Your task to perform on an android device: open app "Instagram" Image 0: 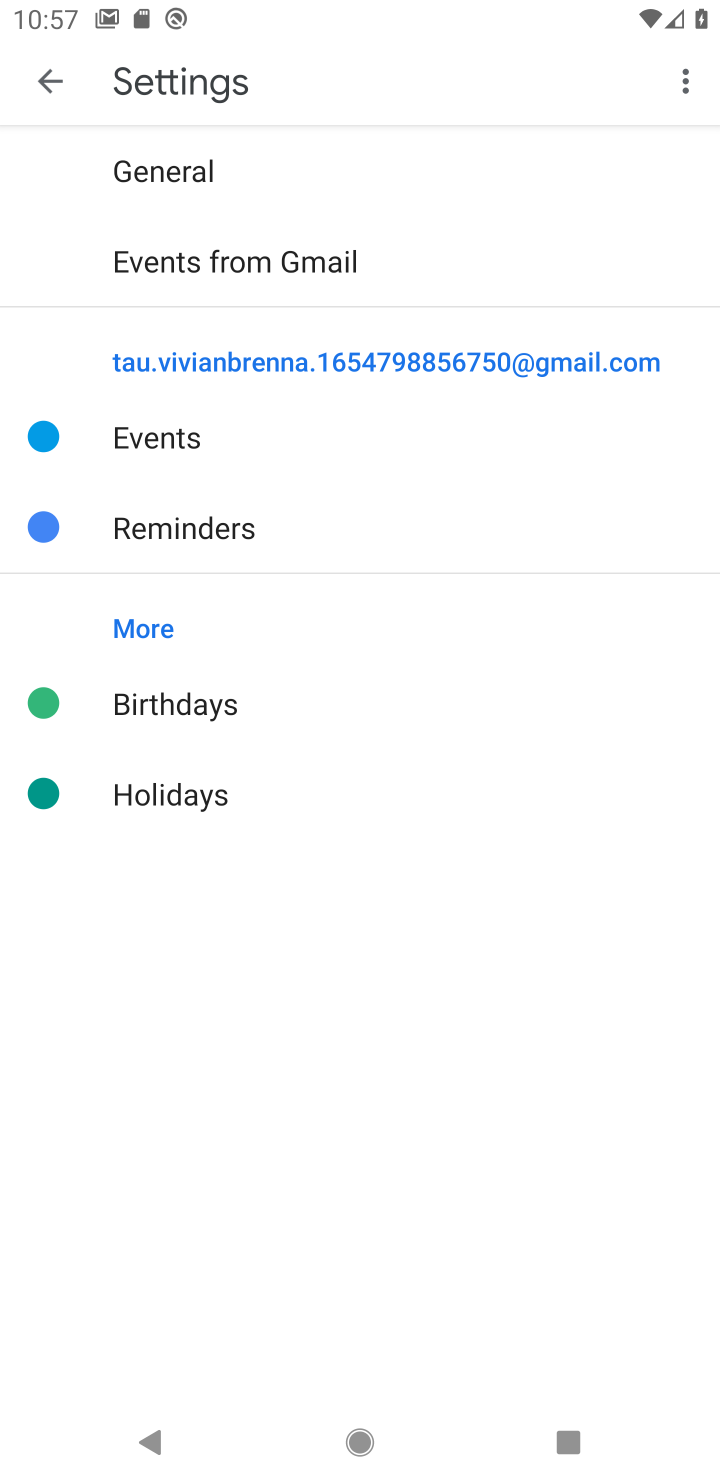
Step 0: press back button
Your task to perform on an android device: open app "Instagram" Image 1: 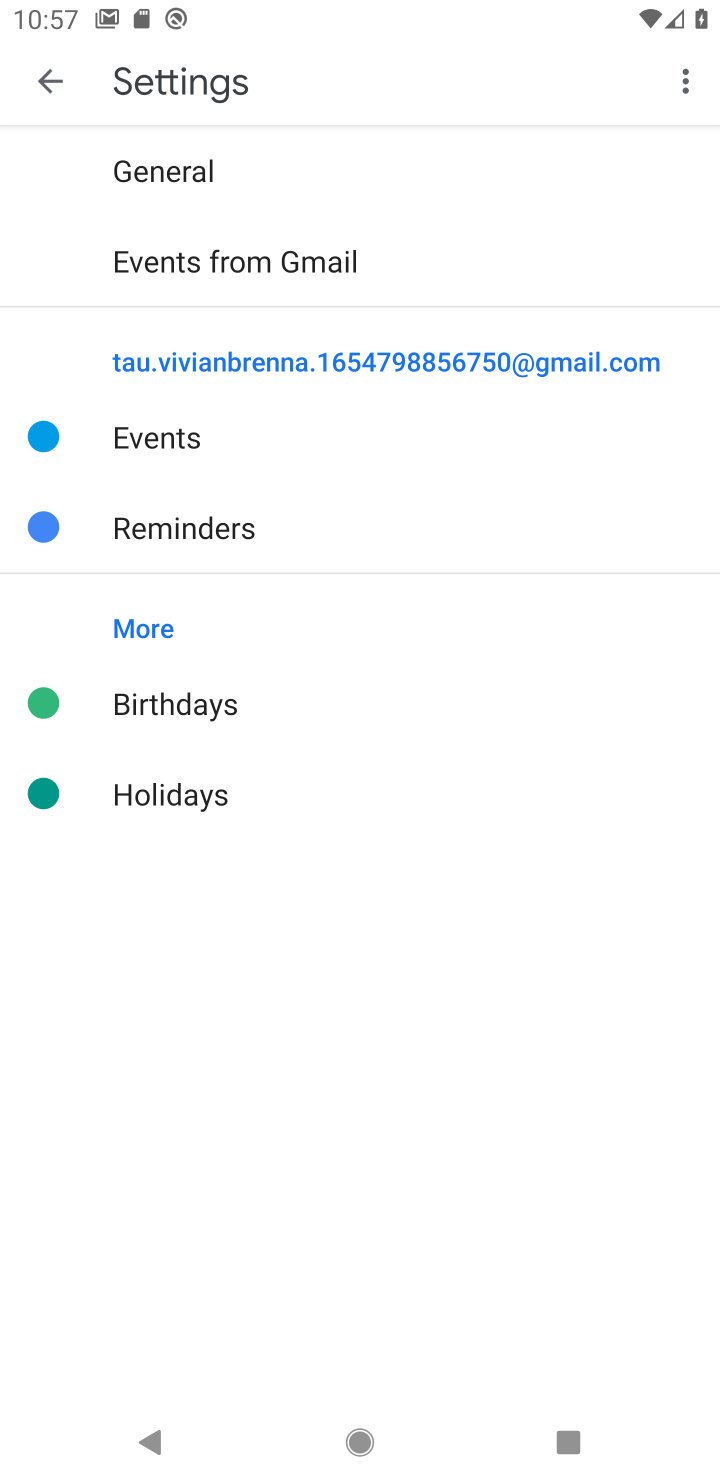
Step 1: press home button
Your task to perform on an android device: open app "Instagram" Image 2: 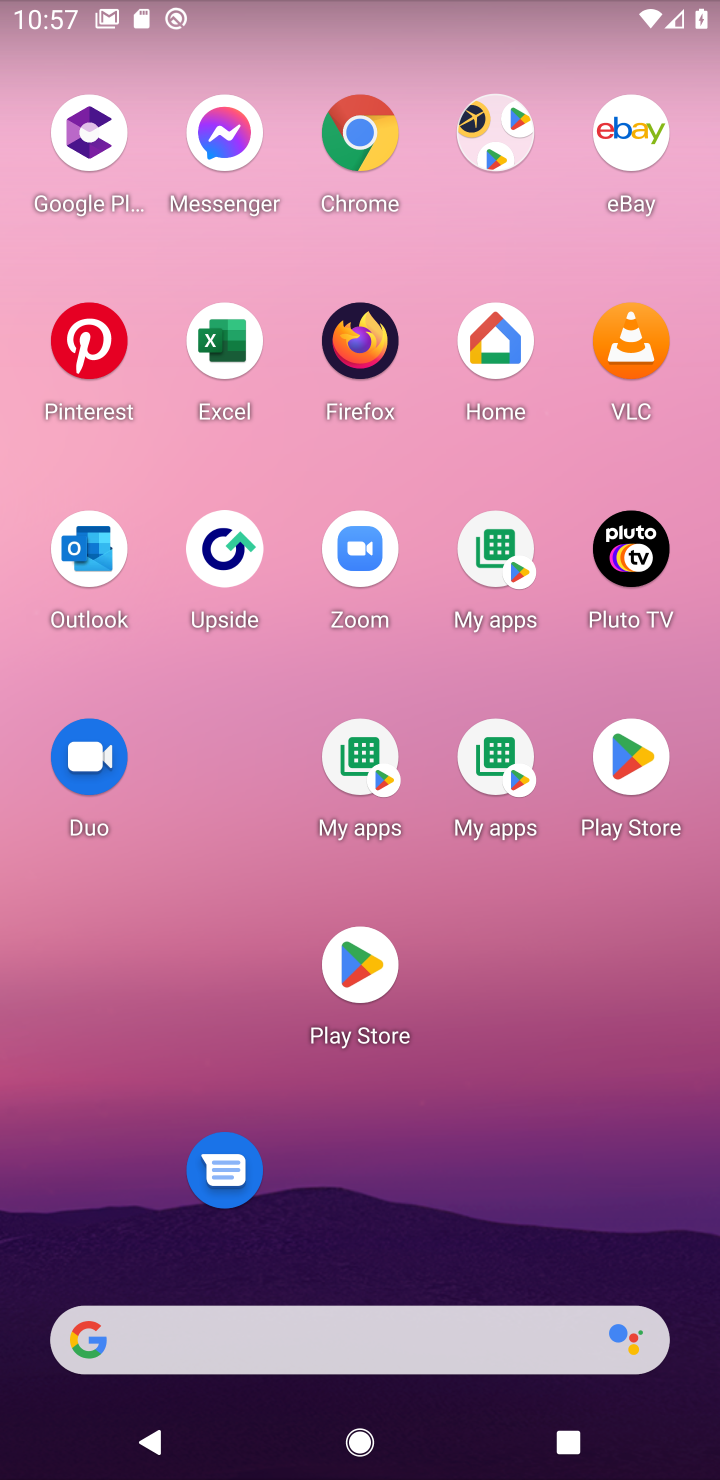
Step 2: click (48, 76)
Your task to perform on an android device: open app "Instagram" Image 3: 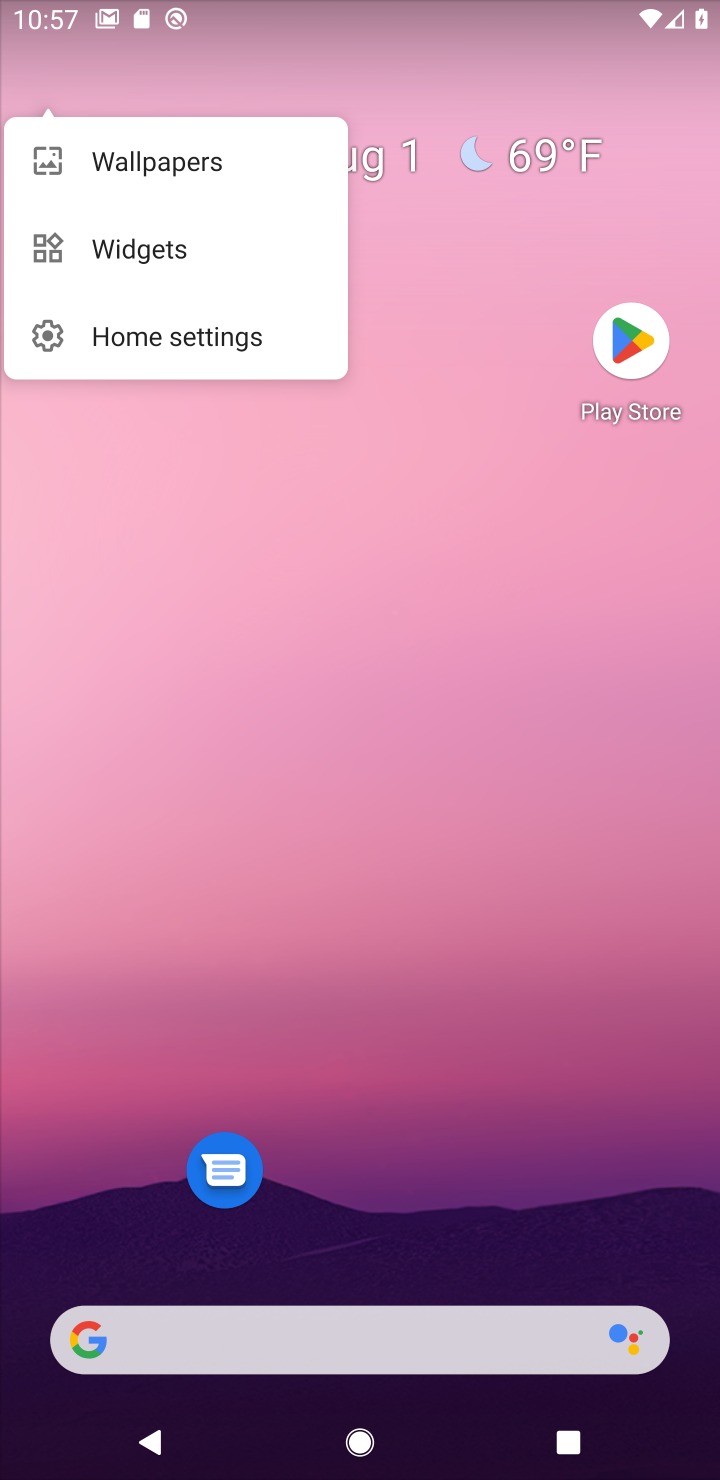
Step 3: press back button
Your task to perform on an android device: open app "Instagram" Image 4: 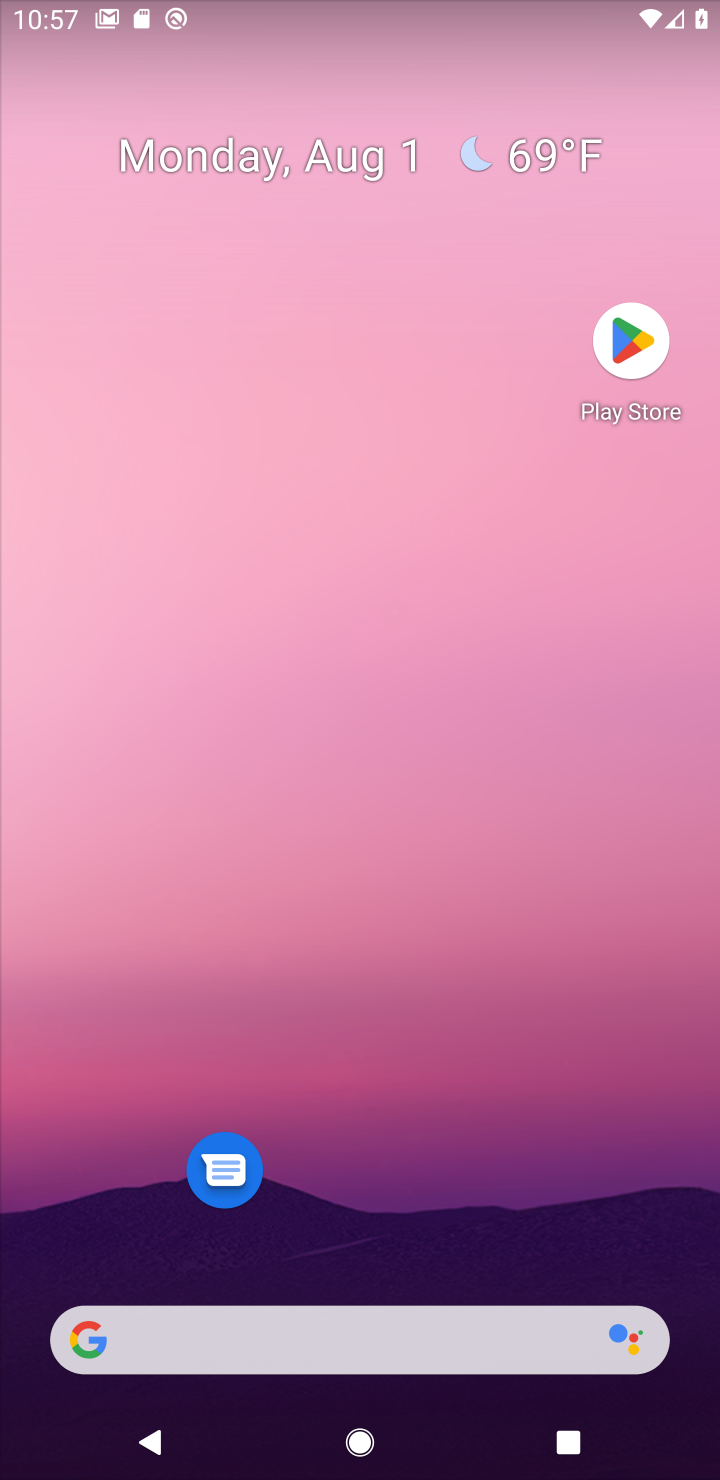
Step 4: drag from (194, 716) to (404, 466)
Your task to perform on an android device: open app "Instagram" Image 5: 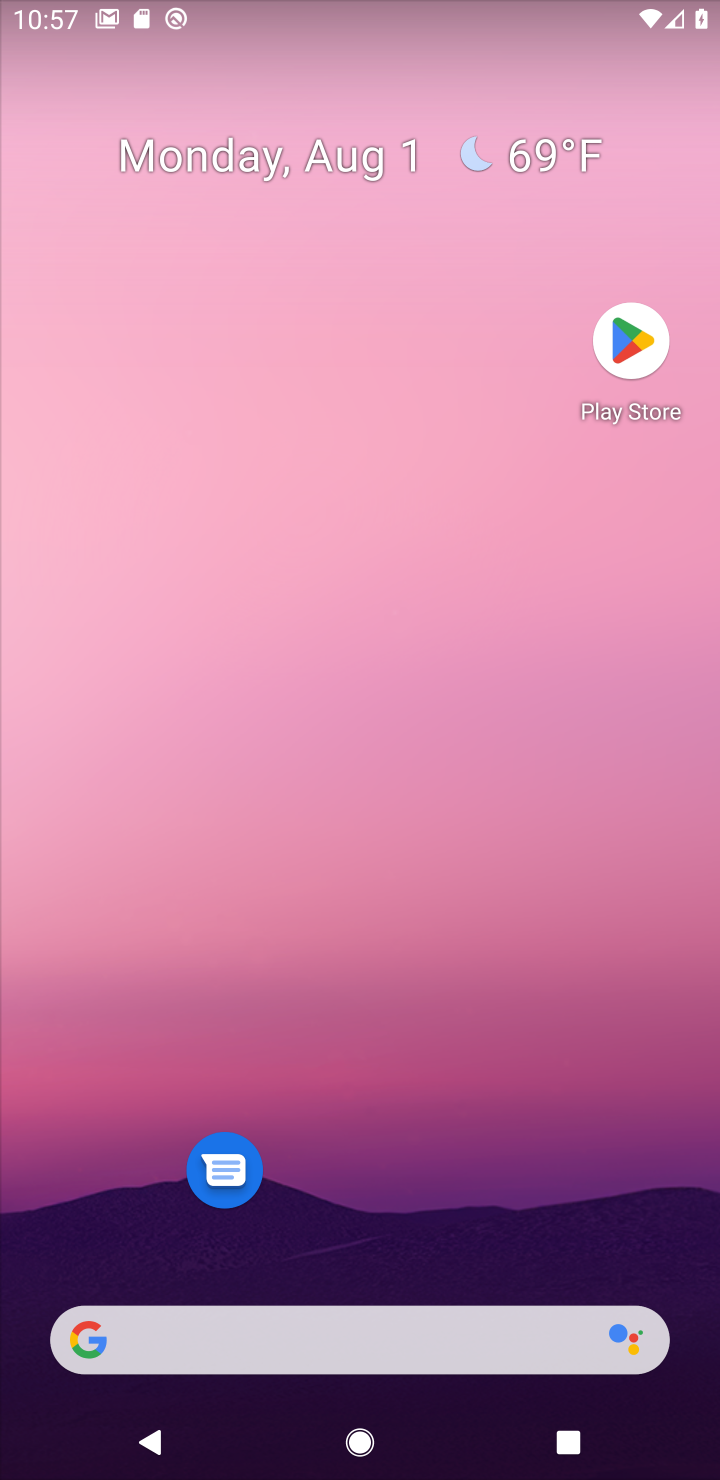
Step 5: click (303, 342)
Your task to perform on an android device: open app "Instagram" Image 6: 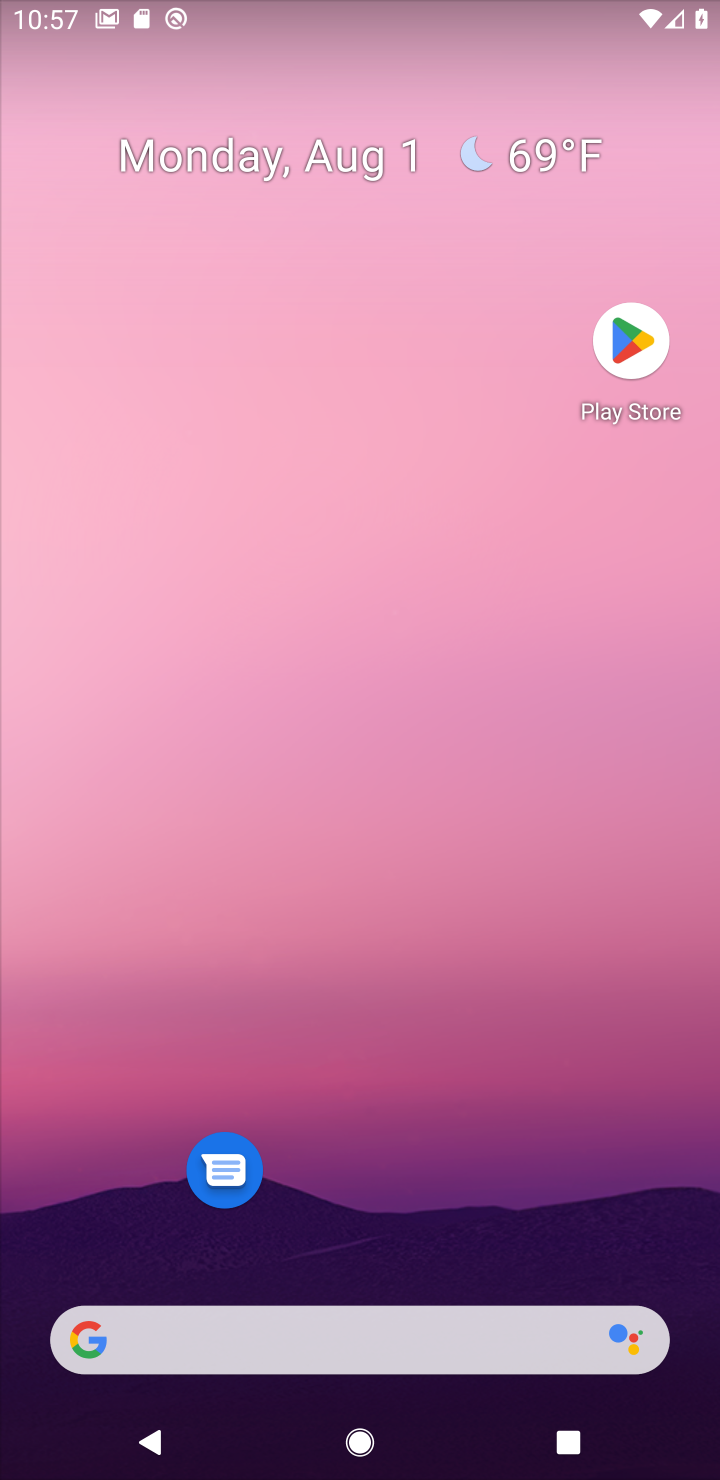
Step 6: drag from (530, 1227) to (224, 175)
Your task to perform on an android device: open app "Instagram" Image 7: 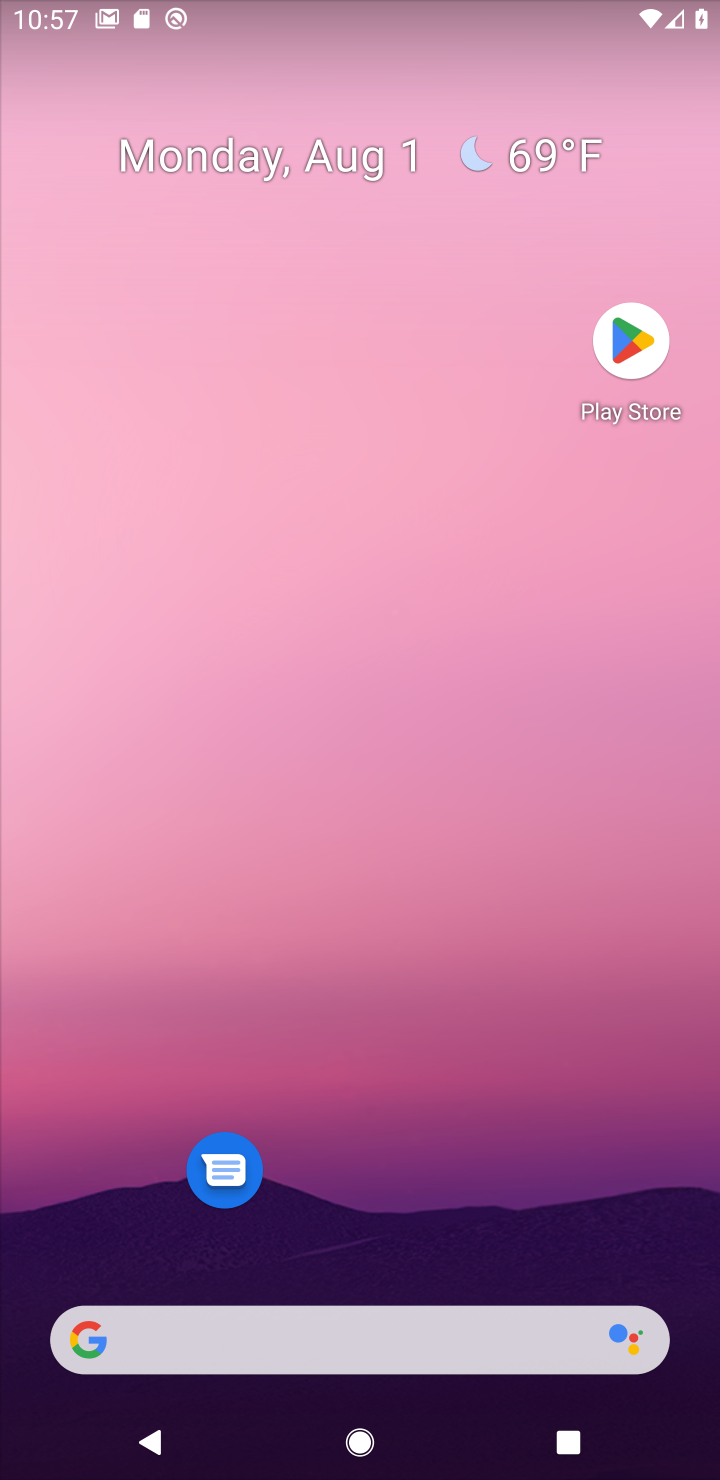
Step 7: click (358, 224)
Your task to perform on an android device: open app "Instagram" Image 8: 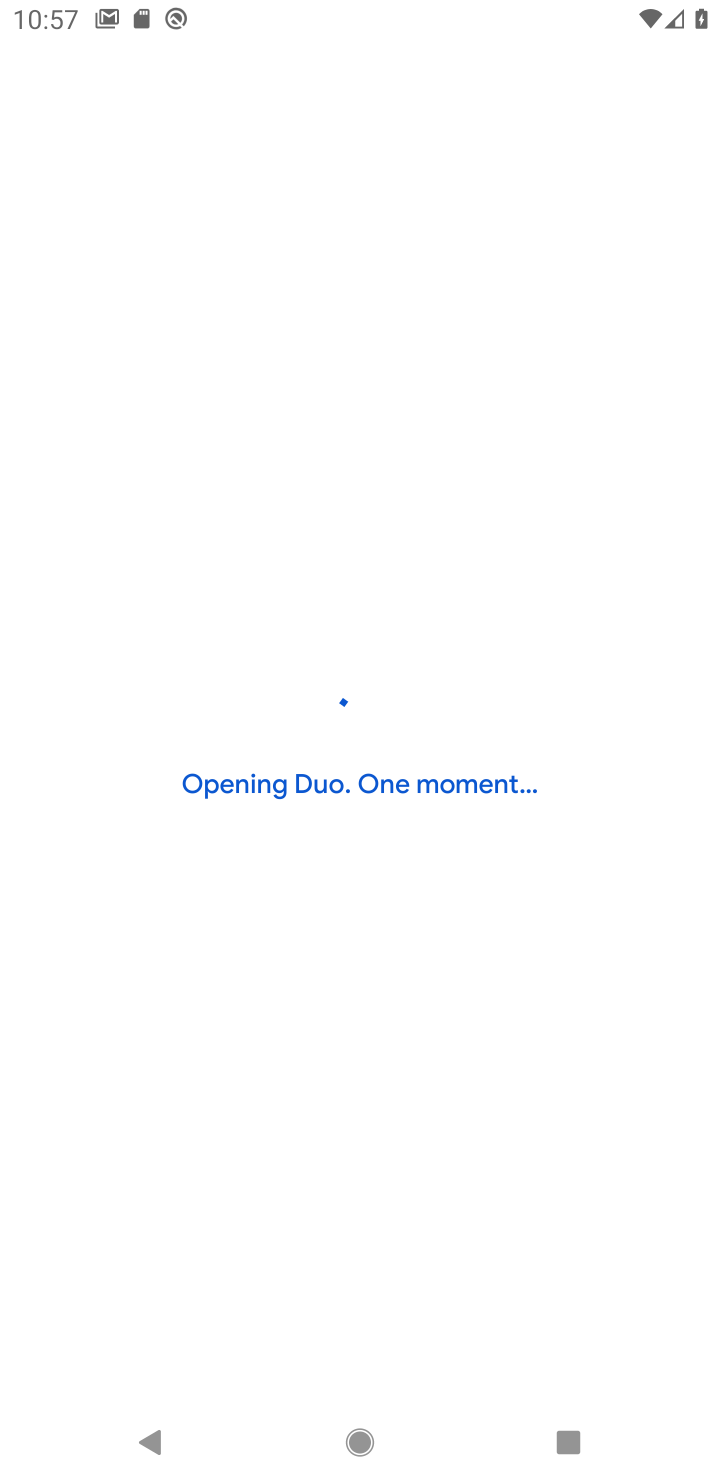
Step 8: press back button
Your task to perform on an android device: open app "Instagram" Image 9: 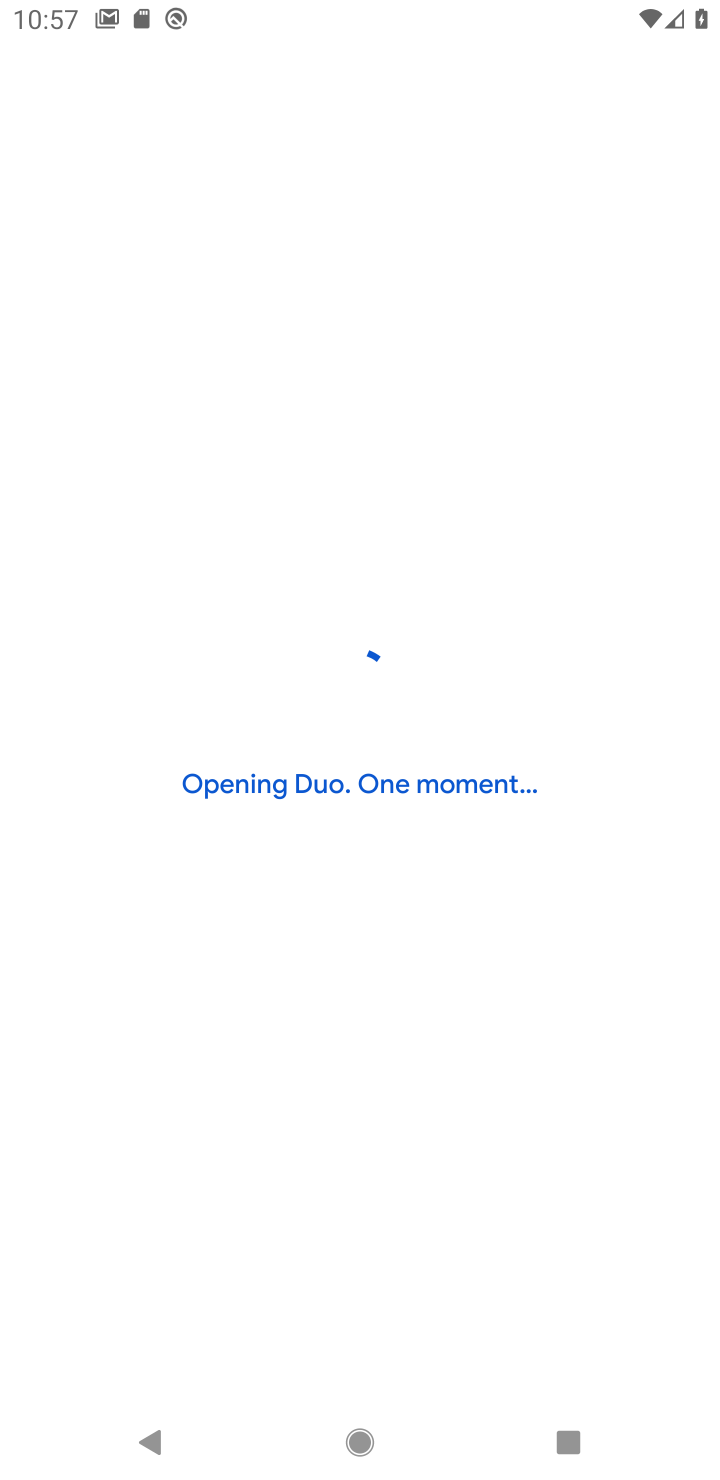
Step 9: press back button
Your task to perform on an android device: open app "Instagram" Image 10: 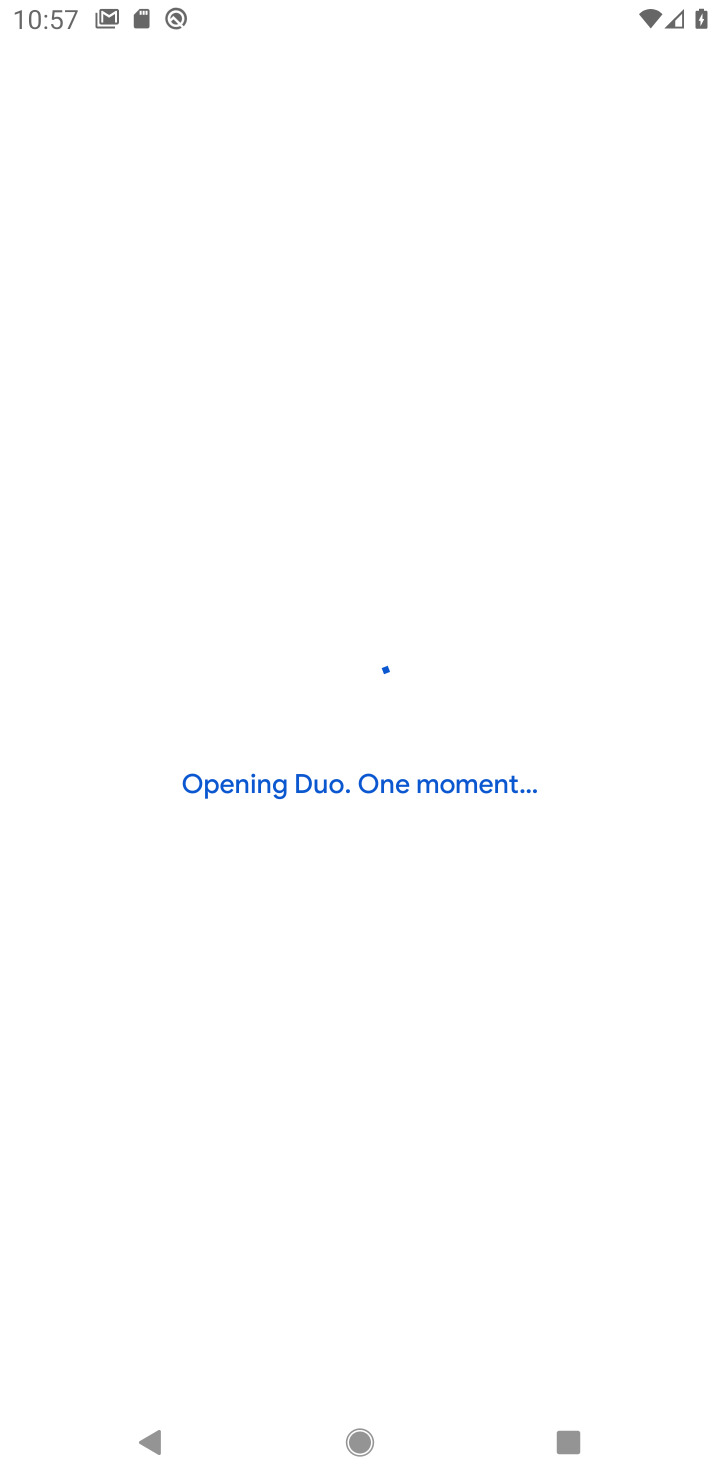
Step 10: drag from (307, 293) to (511, 476)
Your task to perform on an android device: open app "Instagram" Image 11: 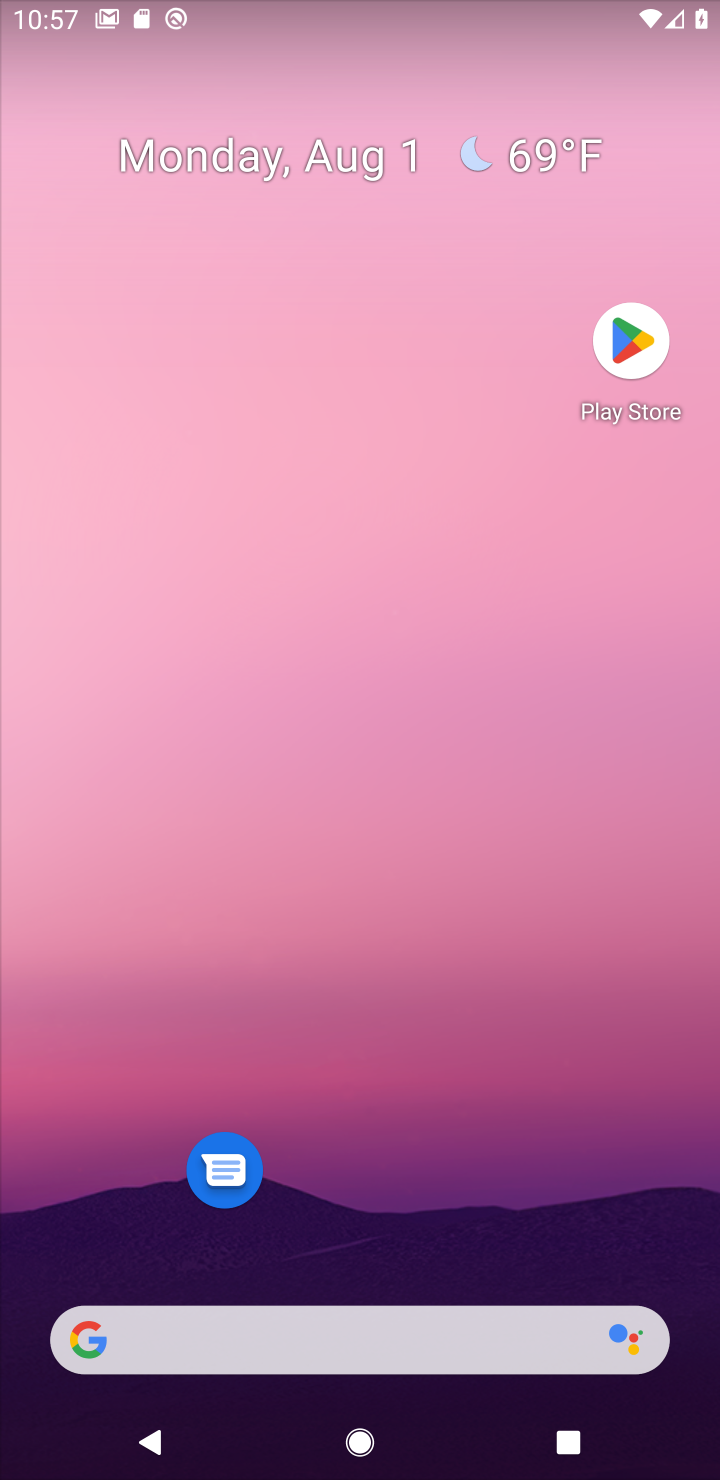
Step 11: press home button
Your task to perform on an android device: open app "Instagram" Image 12: 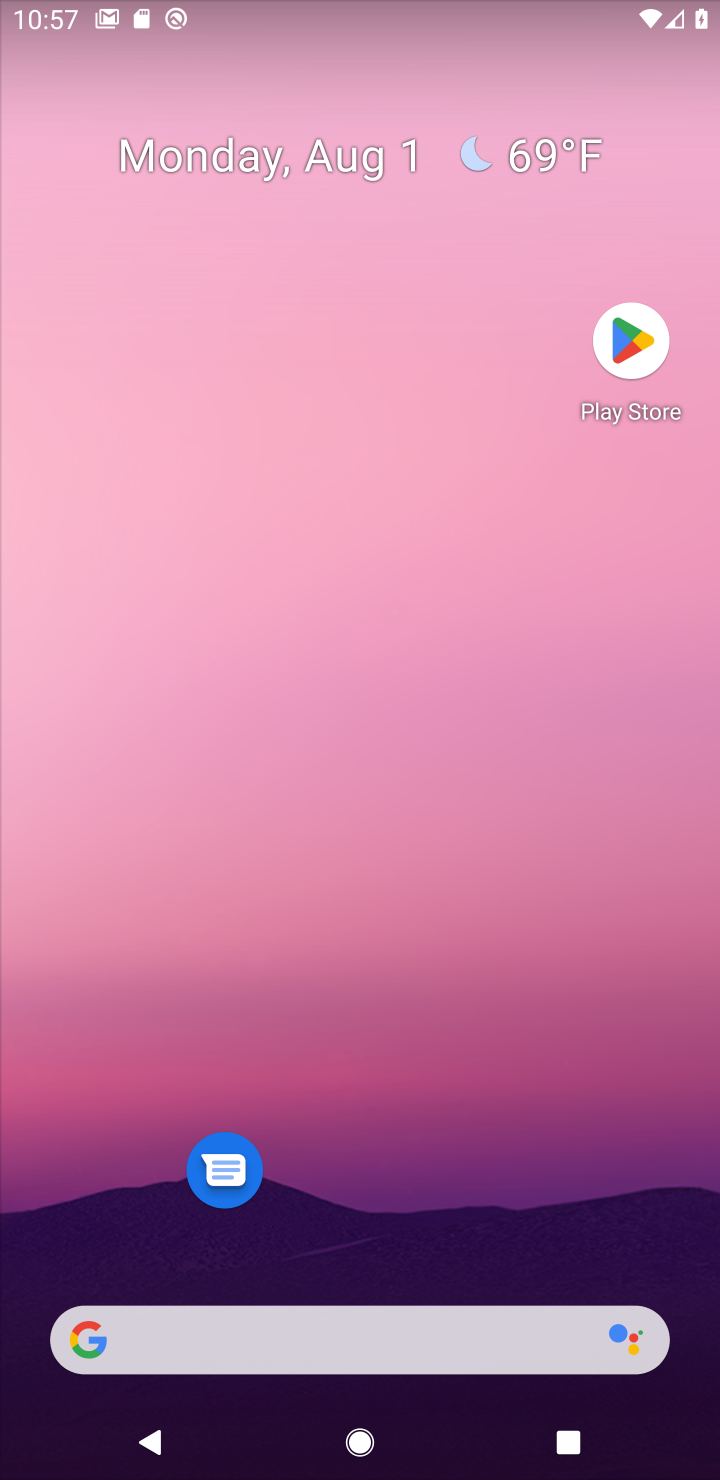
Step 12: press home button
Your task to perform on an android device: open app "Instagram" Image 13: 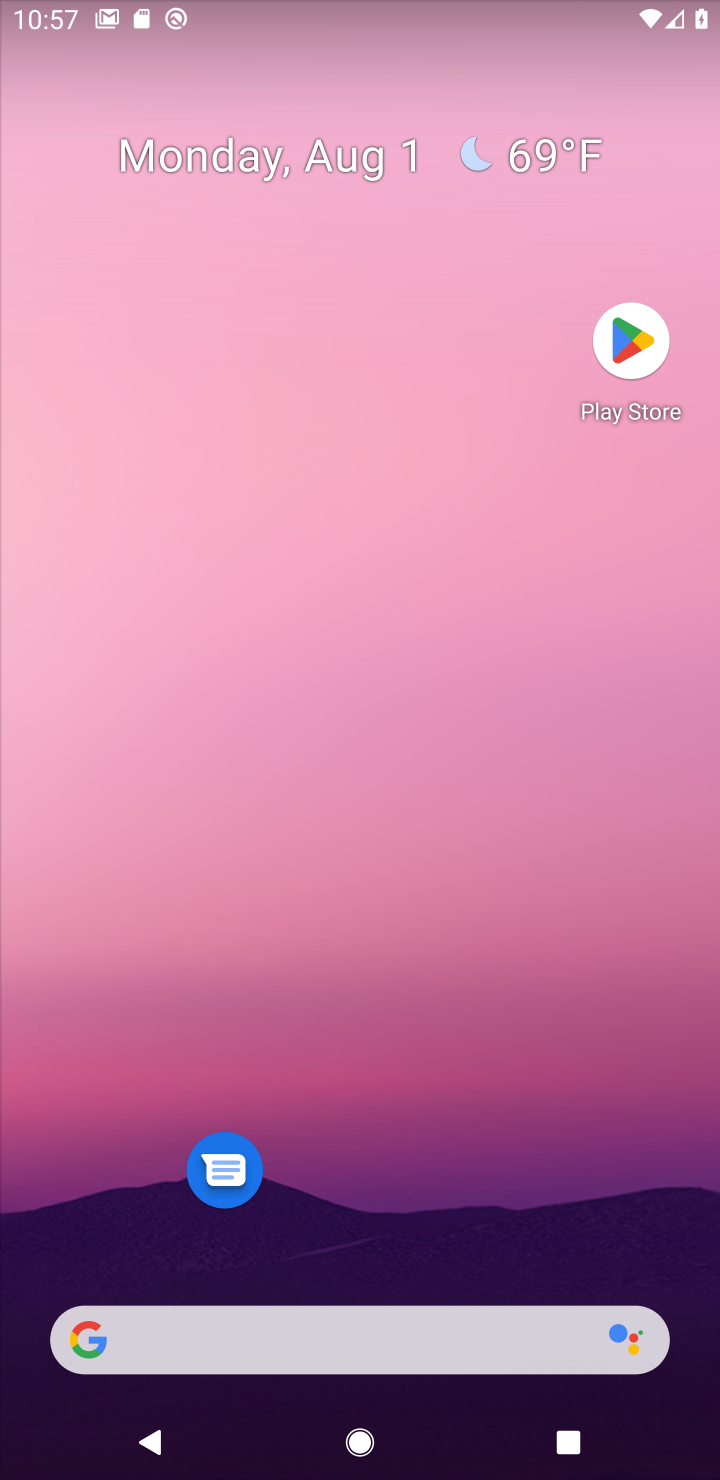
Step 13: click (443, 671)
Your task to perform on an android device: open app "Instagram" Image 14: 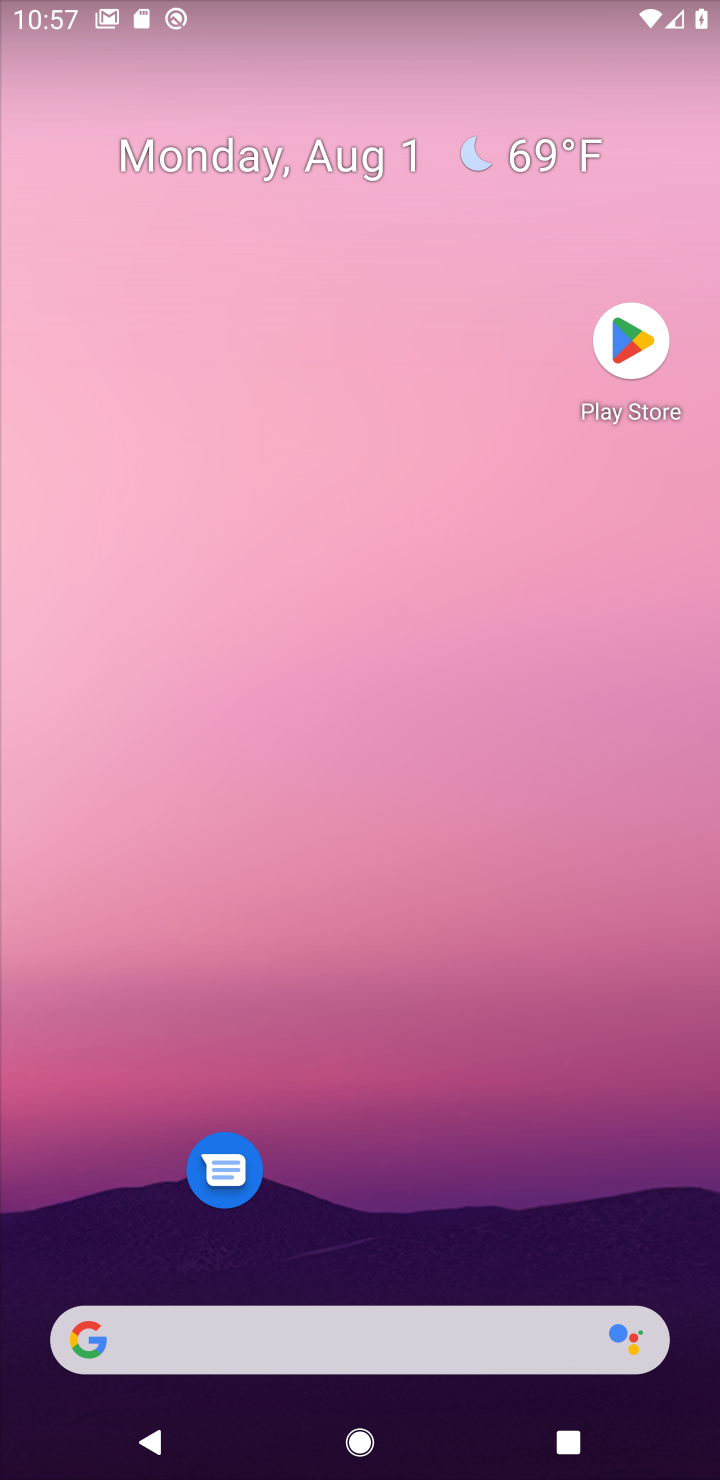
Step 14: drag from (411, 946) to (314, 145)
Your task to perform on an android device: open app "Instagram" Image 15: 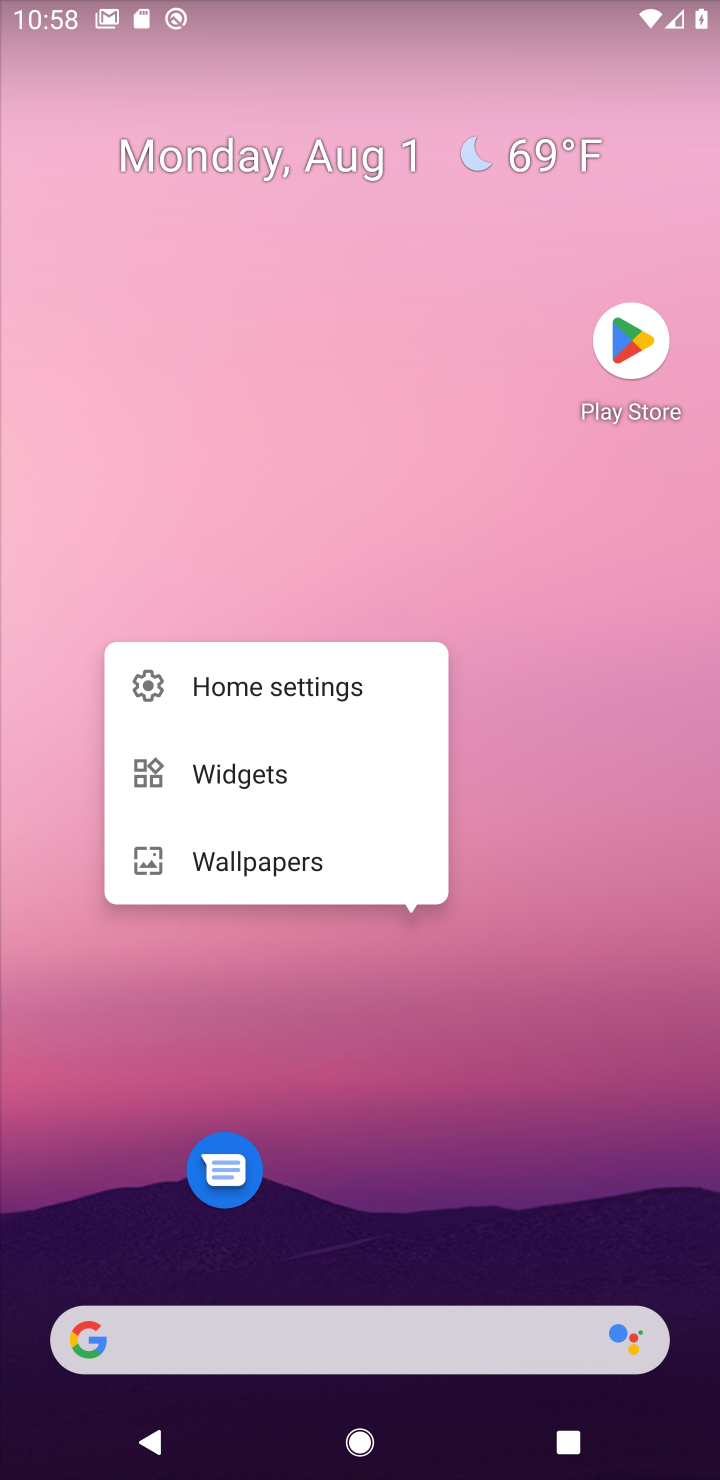
Step 15: drag from (373, 18) to (388, 494)
Your task to perform on an android device: open app "Instagram" Image 16: 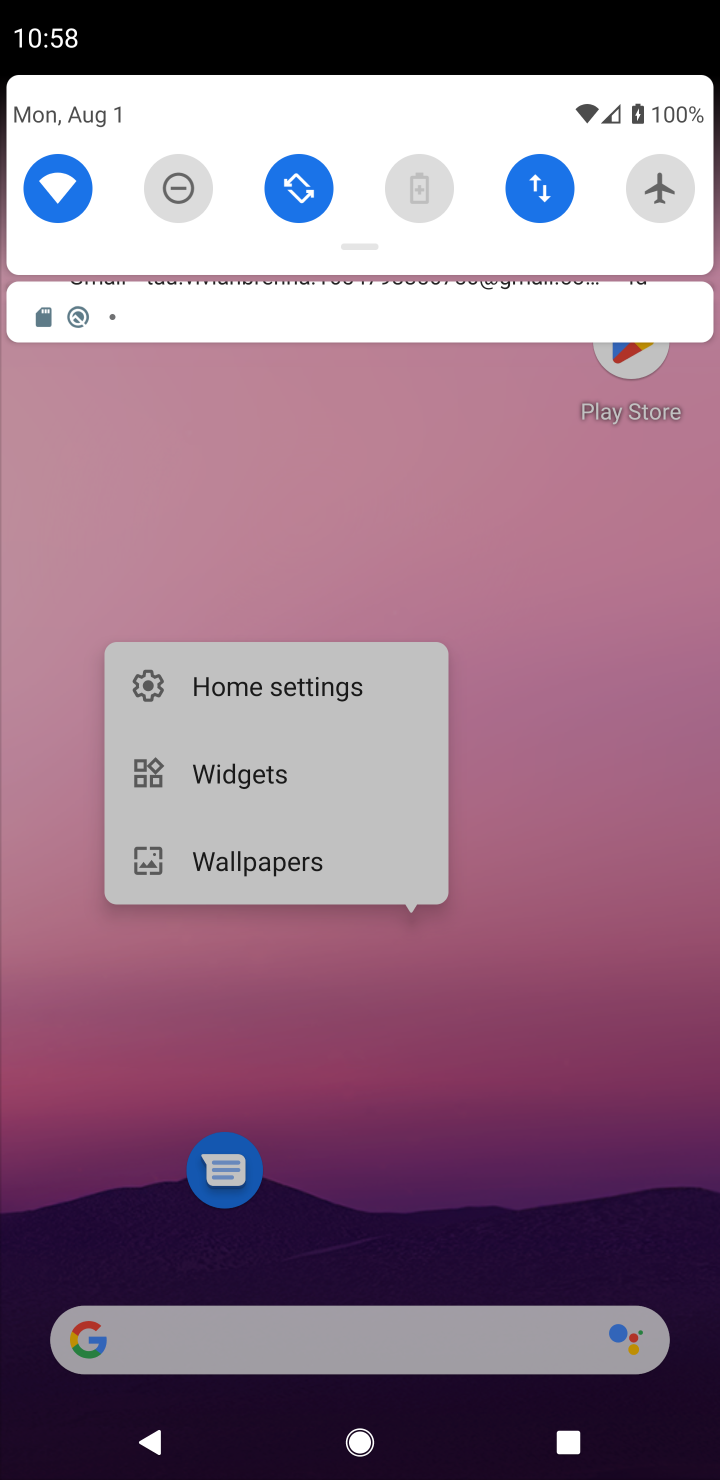
Step 16: drag from (339, 622) to (548, 11)
Your task to perform on an android device: open app "Instagram" Image 17: 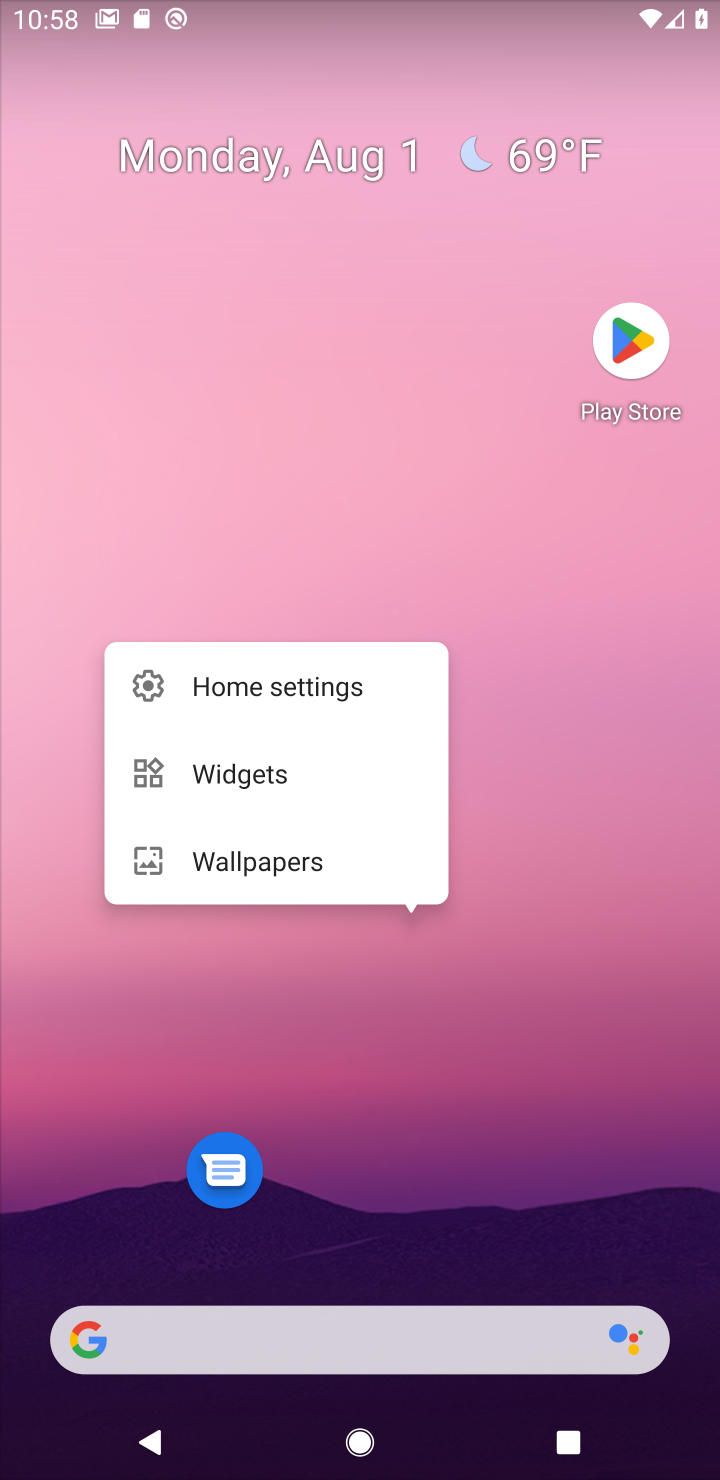
Step 17: press back button
Your task to perform on an android device: open app "Instagram" Image 18: 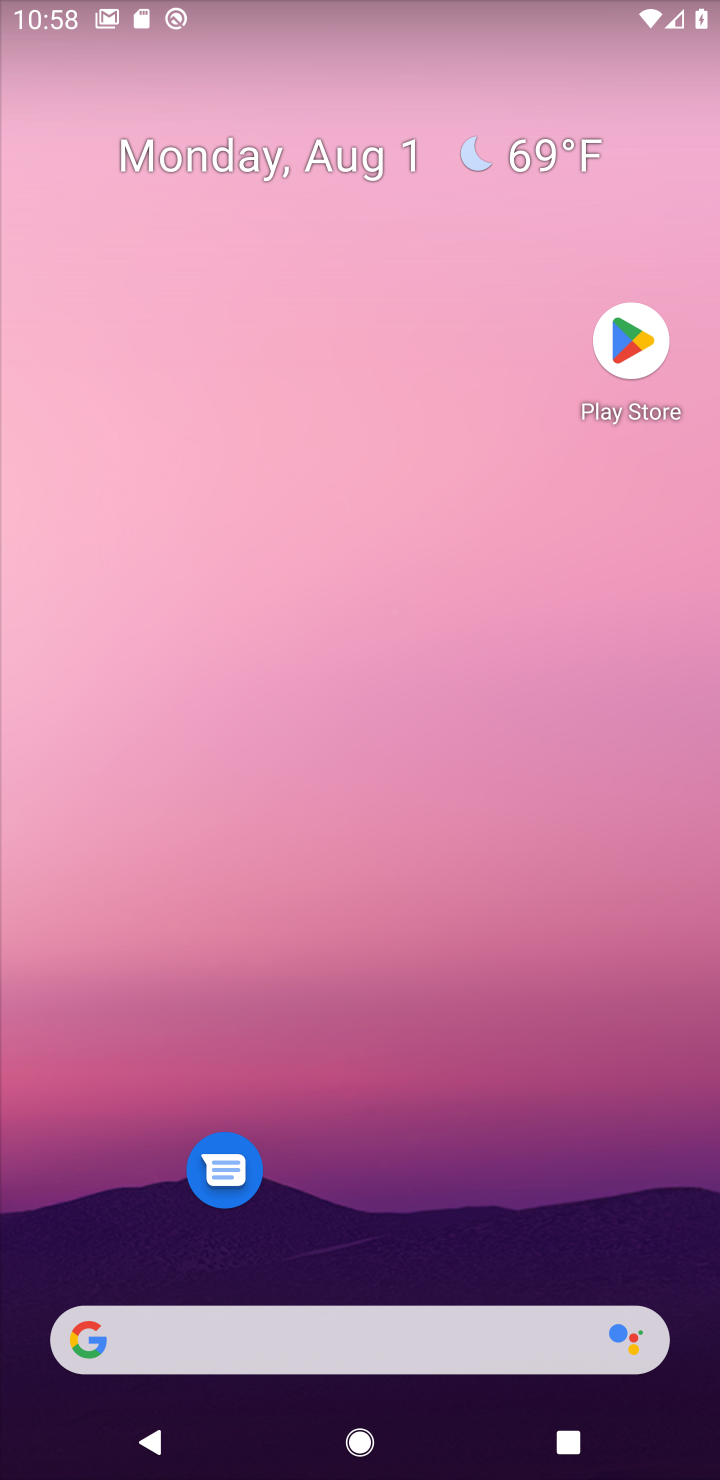
Step 18: drag from (389, 600) to (257, 359)
Your task to perform on an android device: open app "Instagram" Image 19: 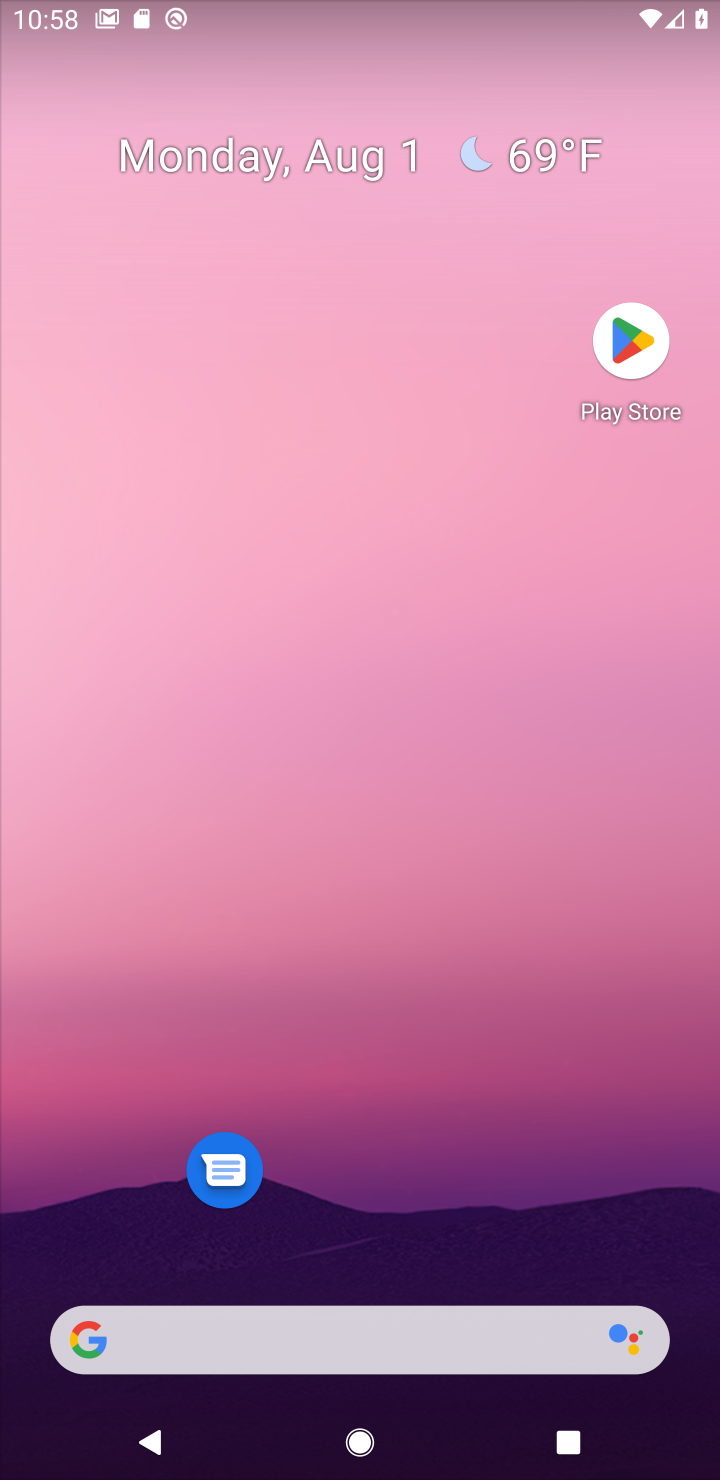
Step 19: drag from (254, 764) to (307, 227)
Your task to perform on an android device: open app "Instagram" Image 20: 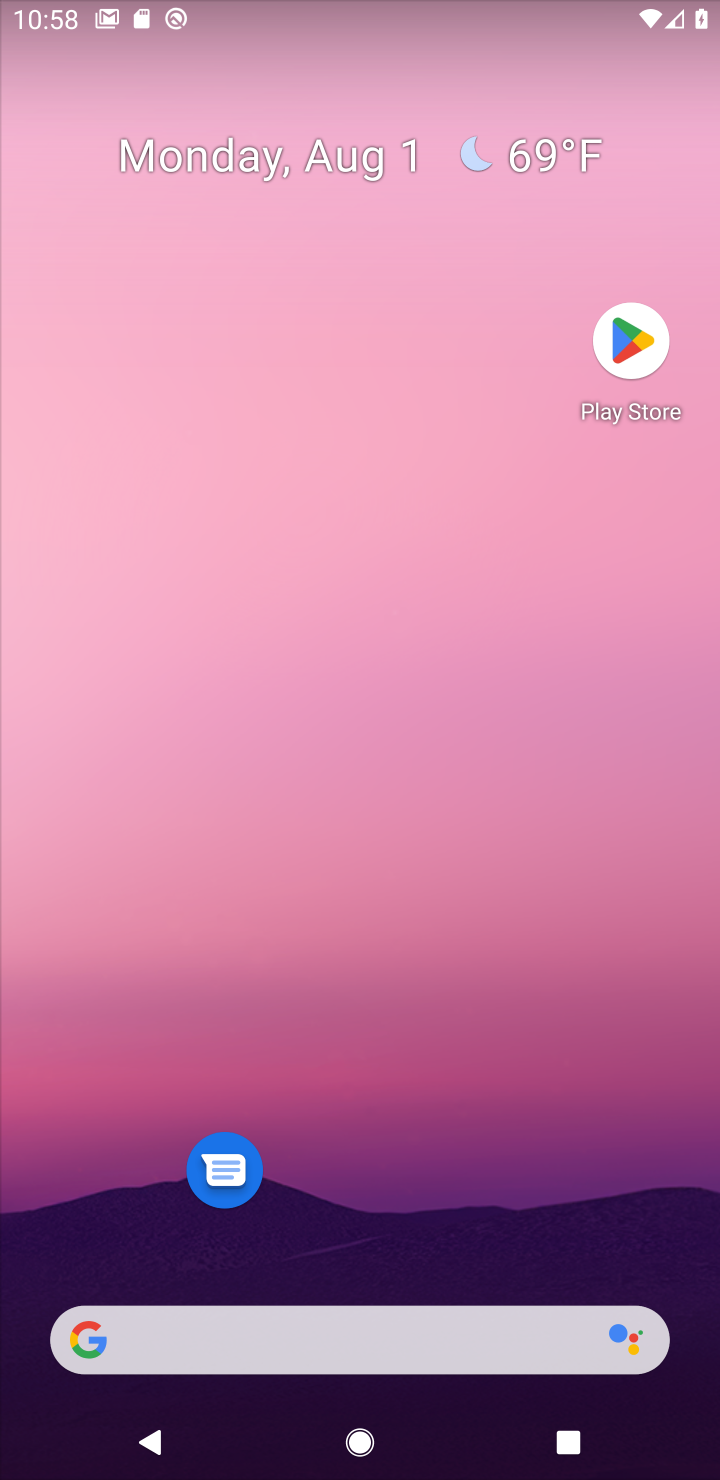
Step 20: drag from (489, 410) to (387, 715)
Your task to perform on an android device: open app "Instagram" Image 21: 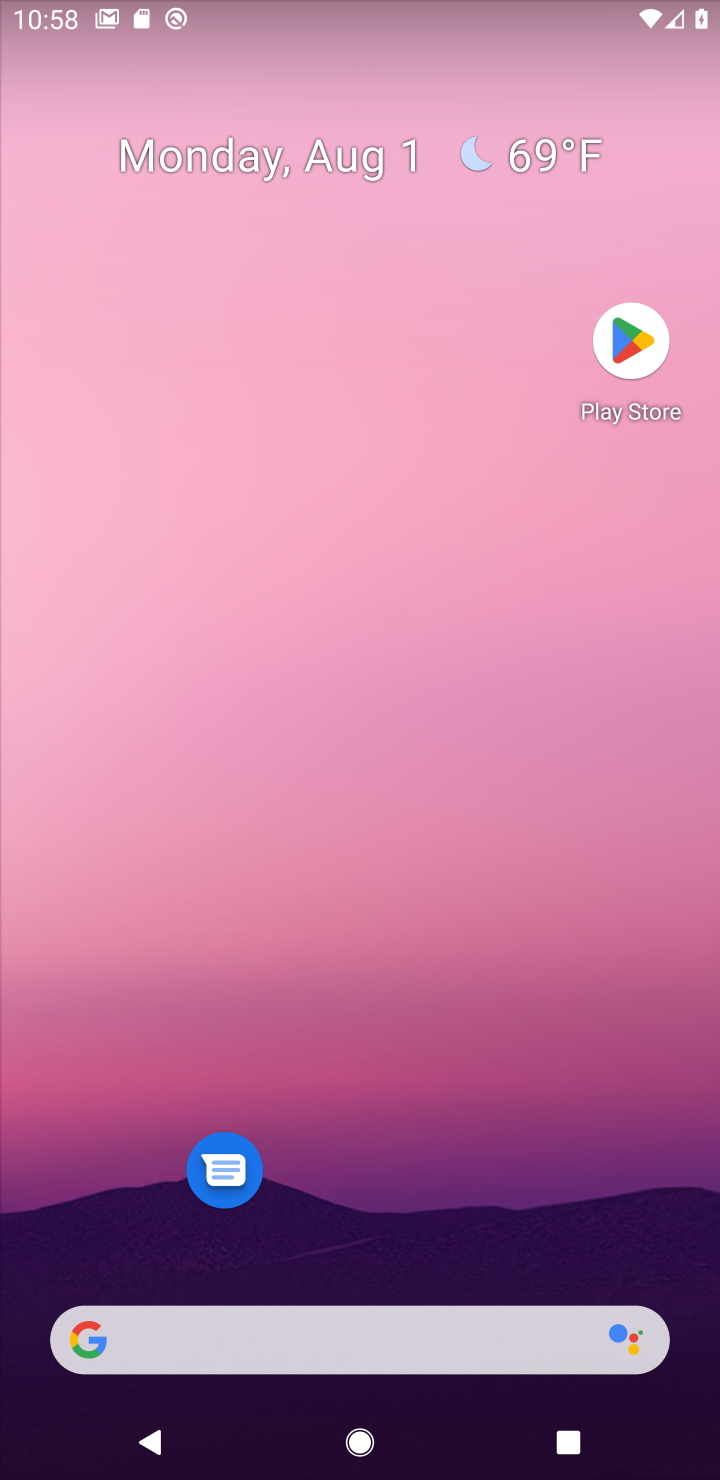
Step 21: drag from (333, 432) to (321, 308)
Your task to perform on an android device: open app "Instagram" Image 22: 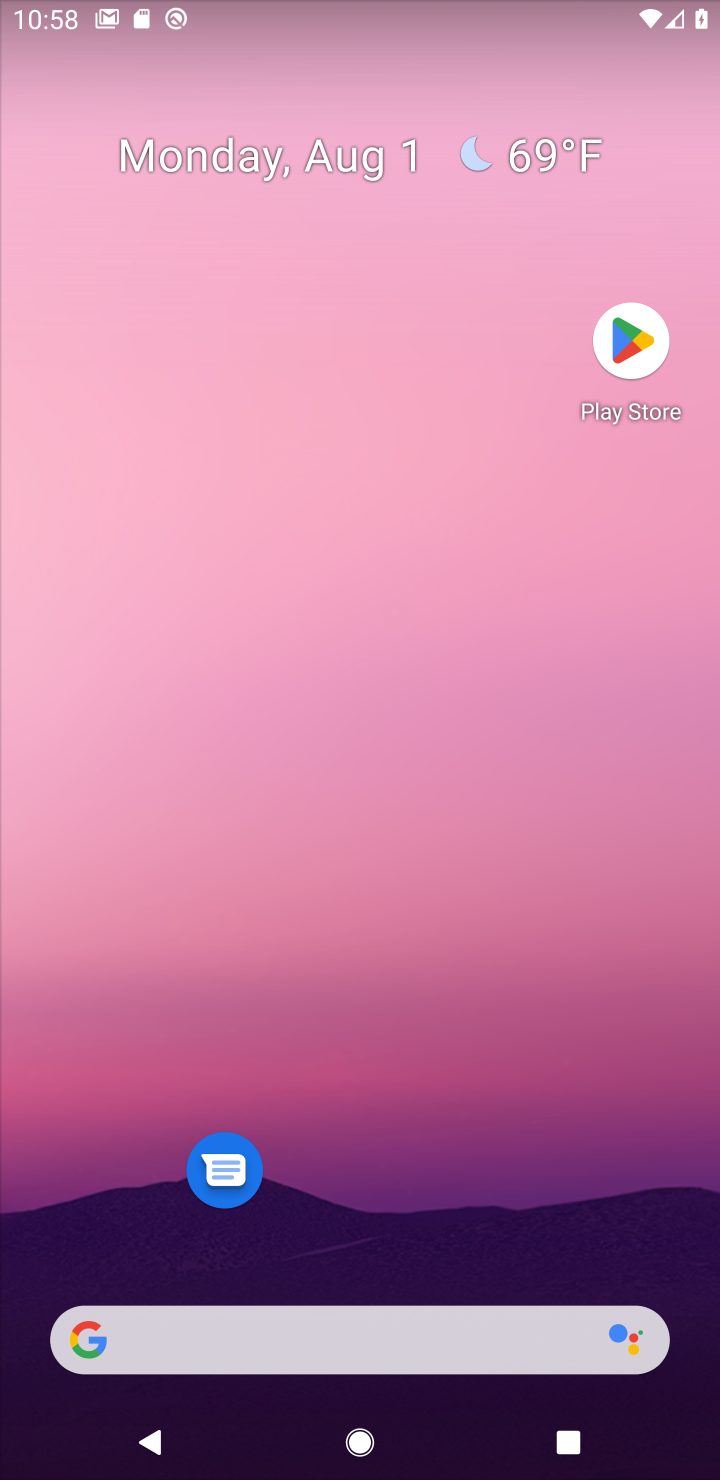
Step 22: drag from (477, 1259) to (210, 244)
Your task to perform on an android device: open app "Instagram" Image 23: 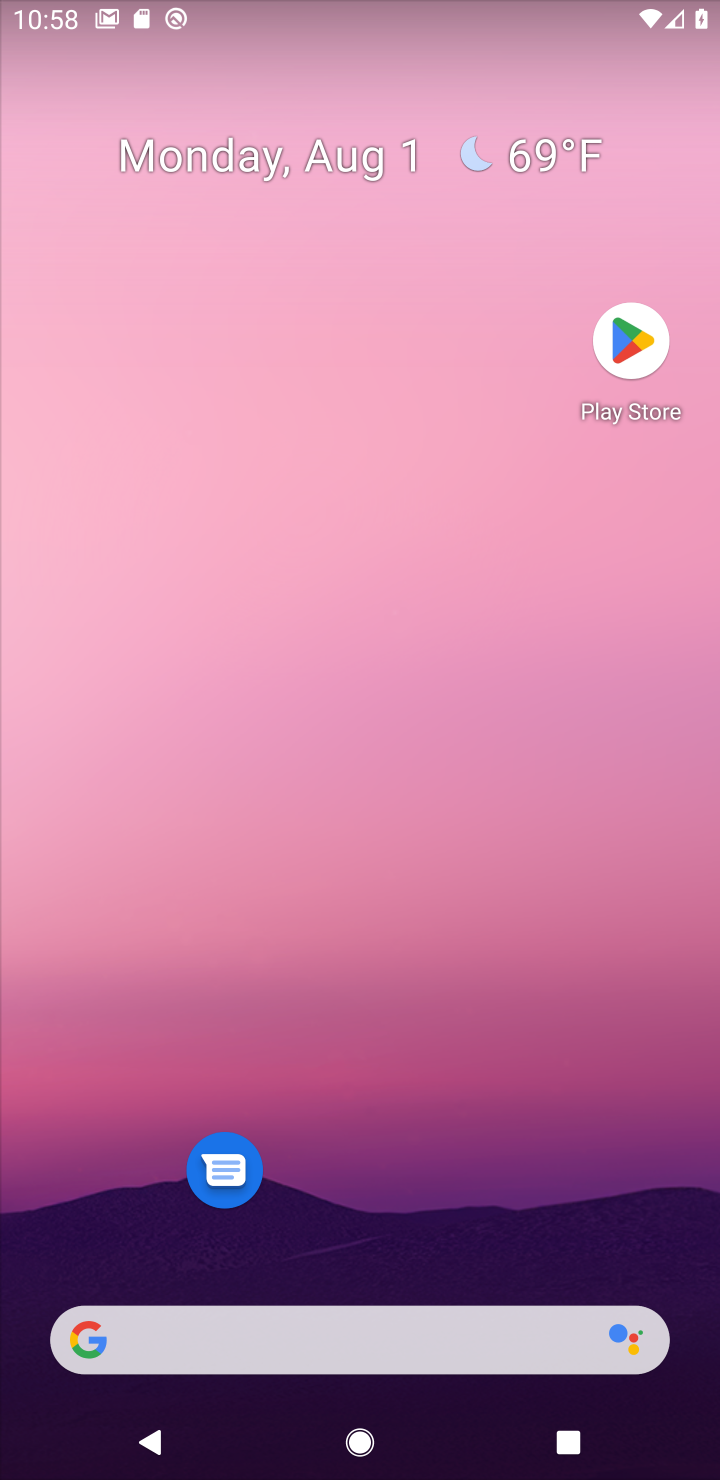
Step 23: drag from (40, 354) to (341, 228)
Your task to perform on an android device: open app "Instagram" Image 24: 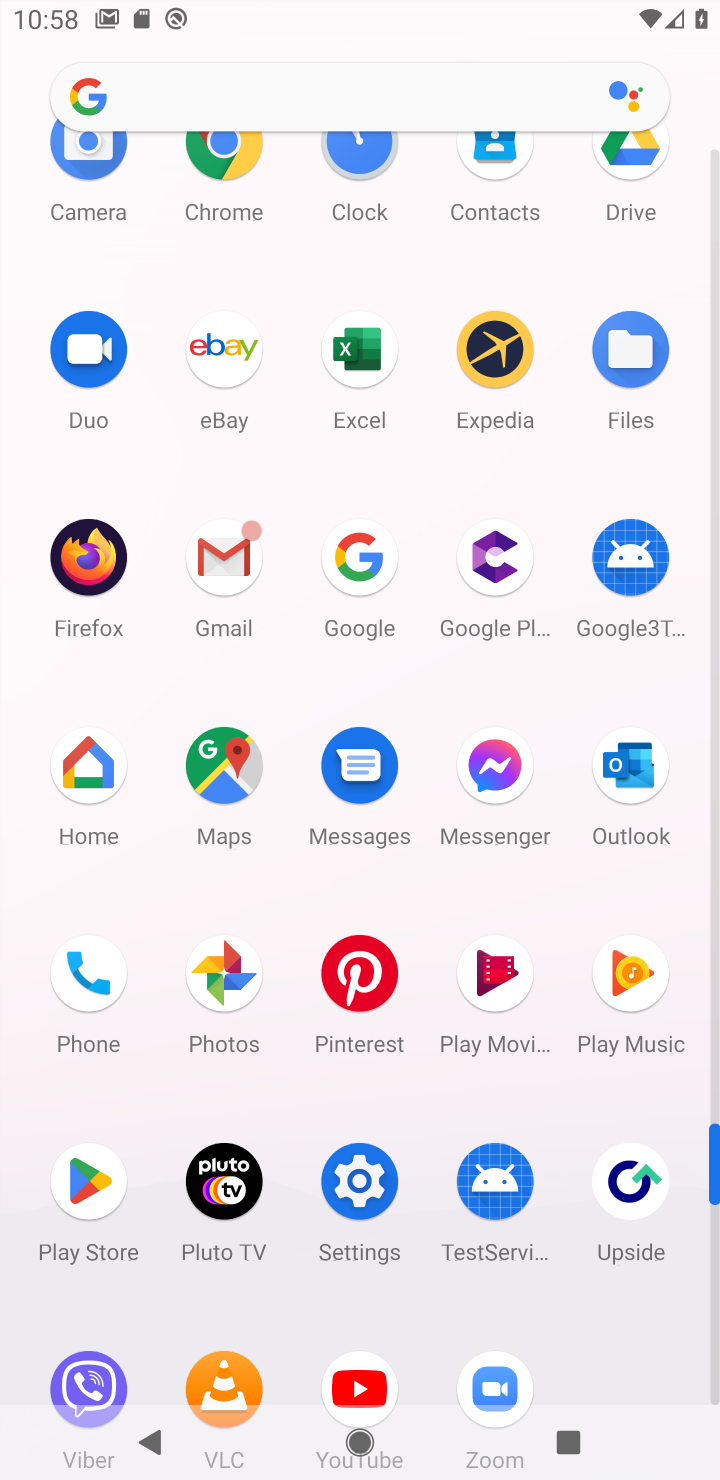
Step 24: drag from (337, 530) to (499, 1051)
Your task to perform on an android device: open app "Instagram" Image 25: 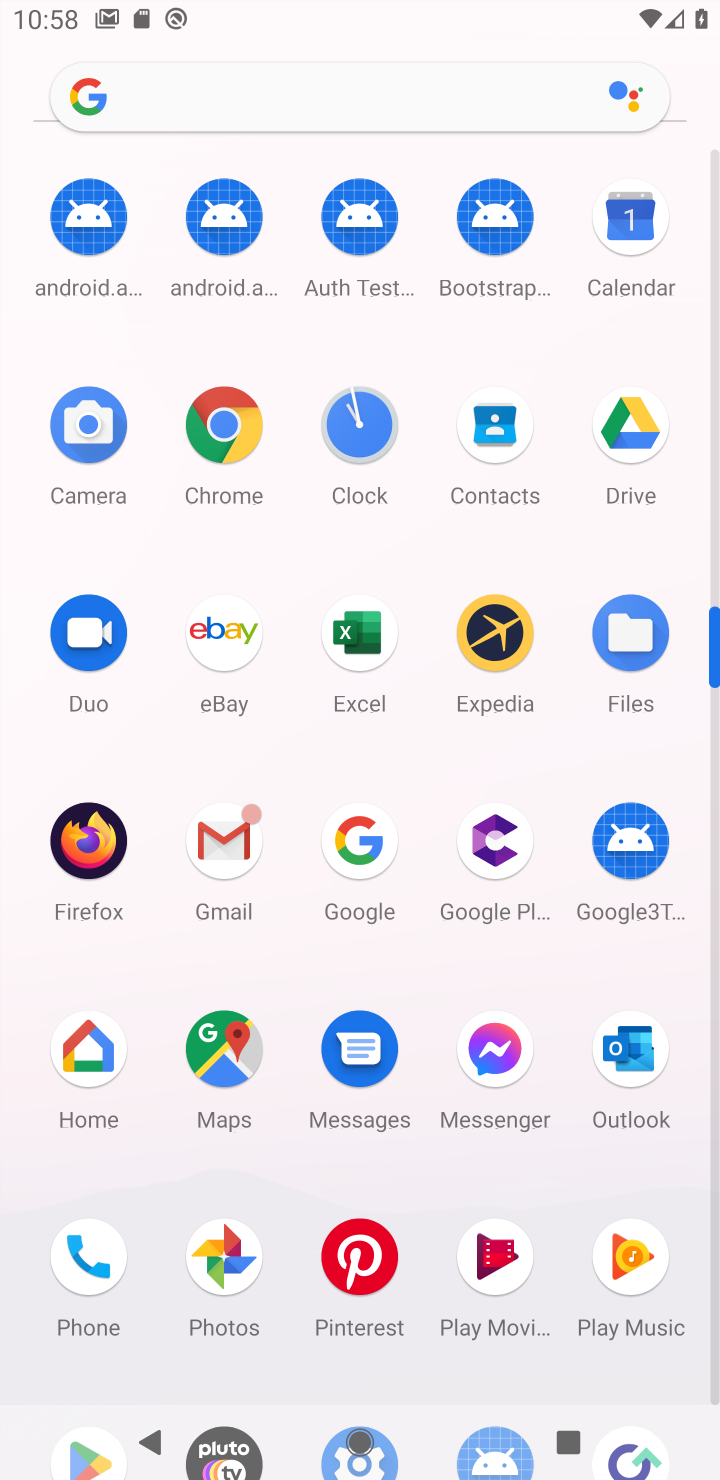
Step 25: drag from (406, 1324) to (136, 254)
Your task to perform on an android device: open app "Instagram" Image 26: 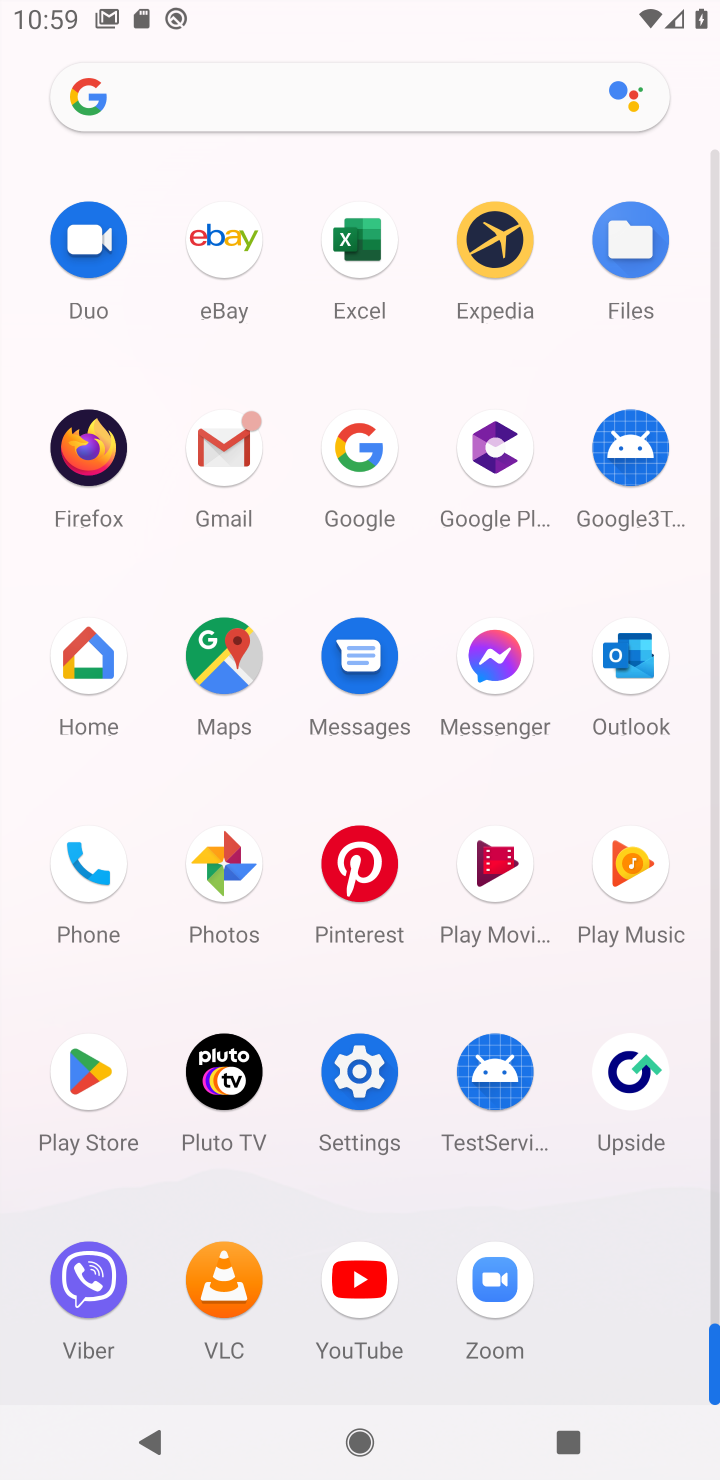
Step 26: click (80, 1055)
Your task to perform on an android device: open app "Instagram" Image 27: 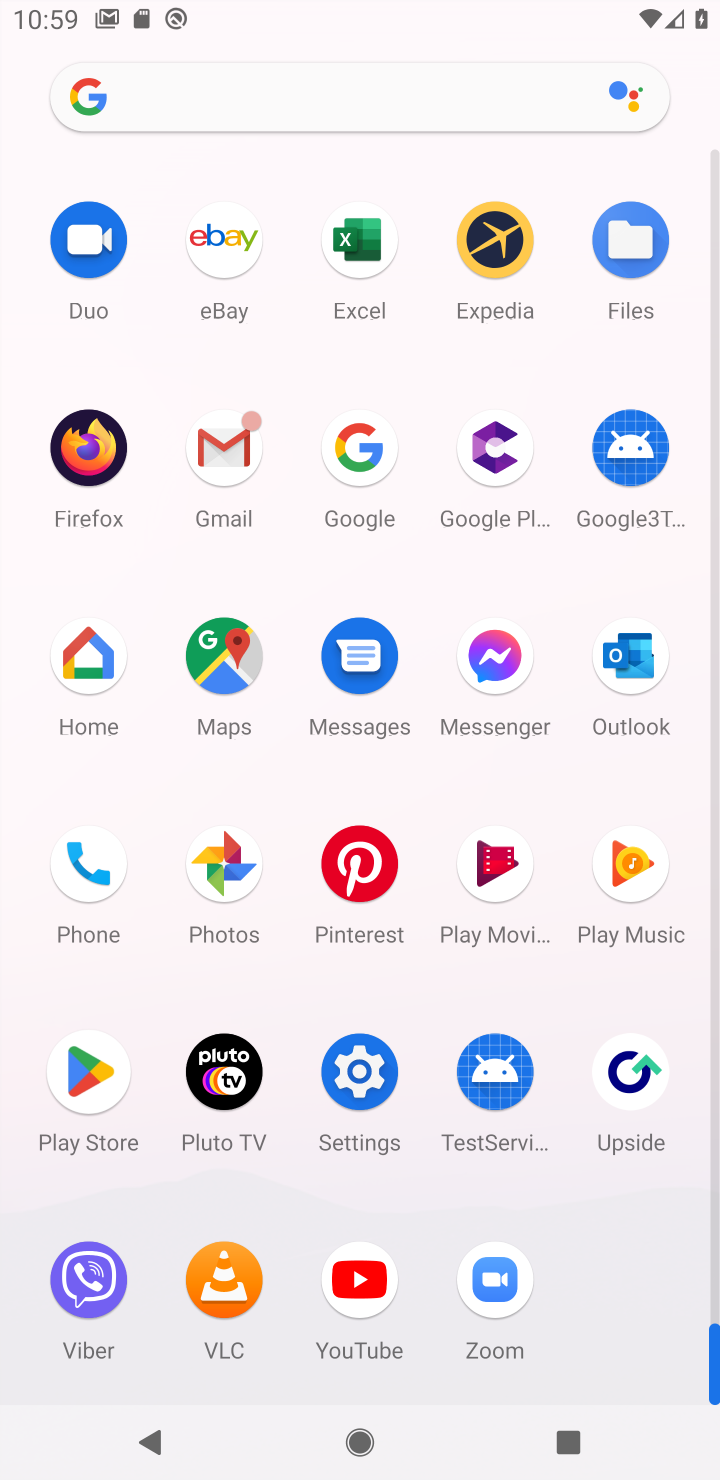
Step 27: click (89, 1057)
Your task to perform on an android device: open app "Instagram" Image 28: 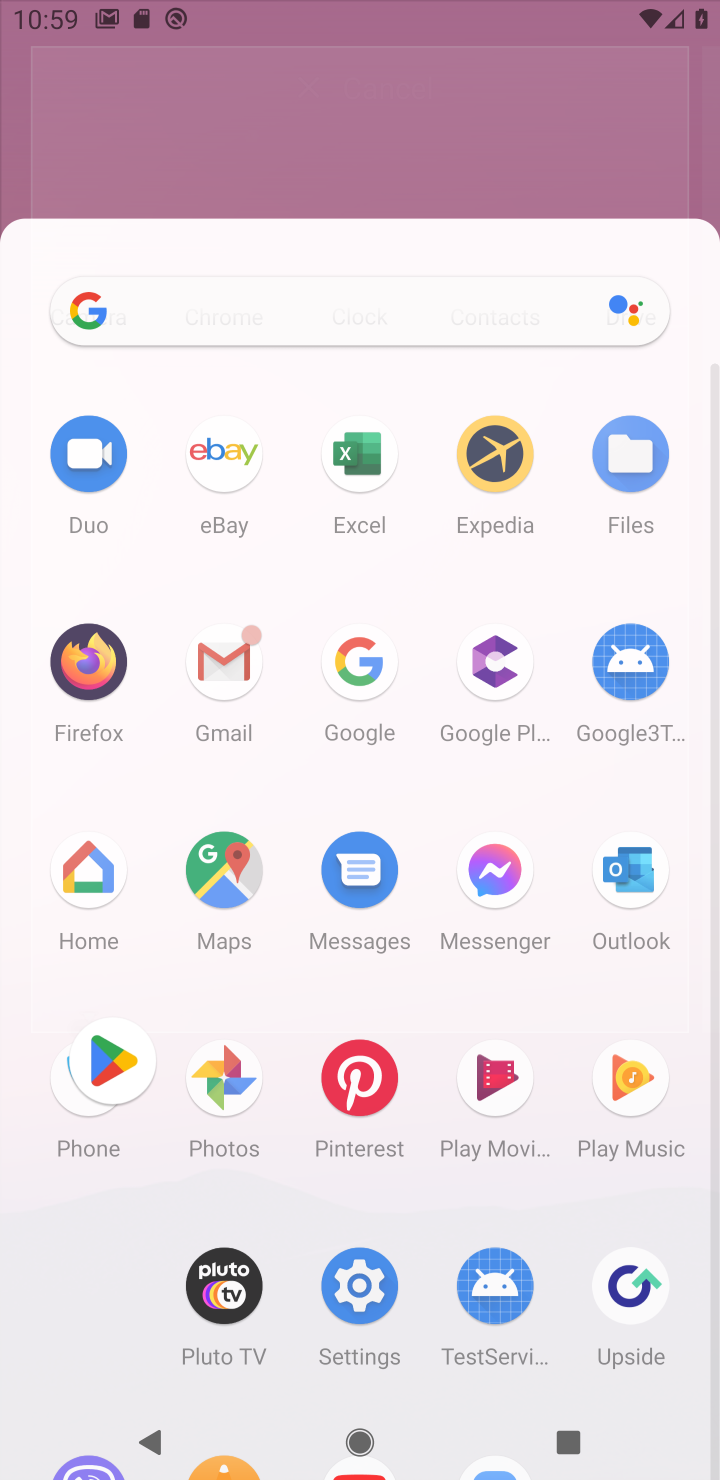
Step 28: click (95, 1057)
Your task to perform on an android device: open app "Instagram" Image 29: 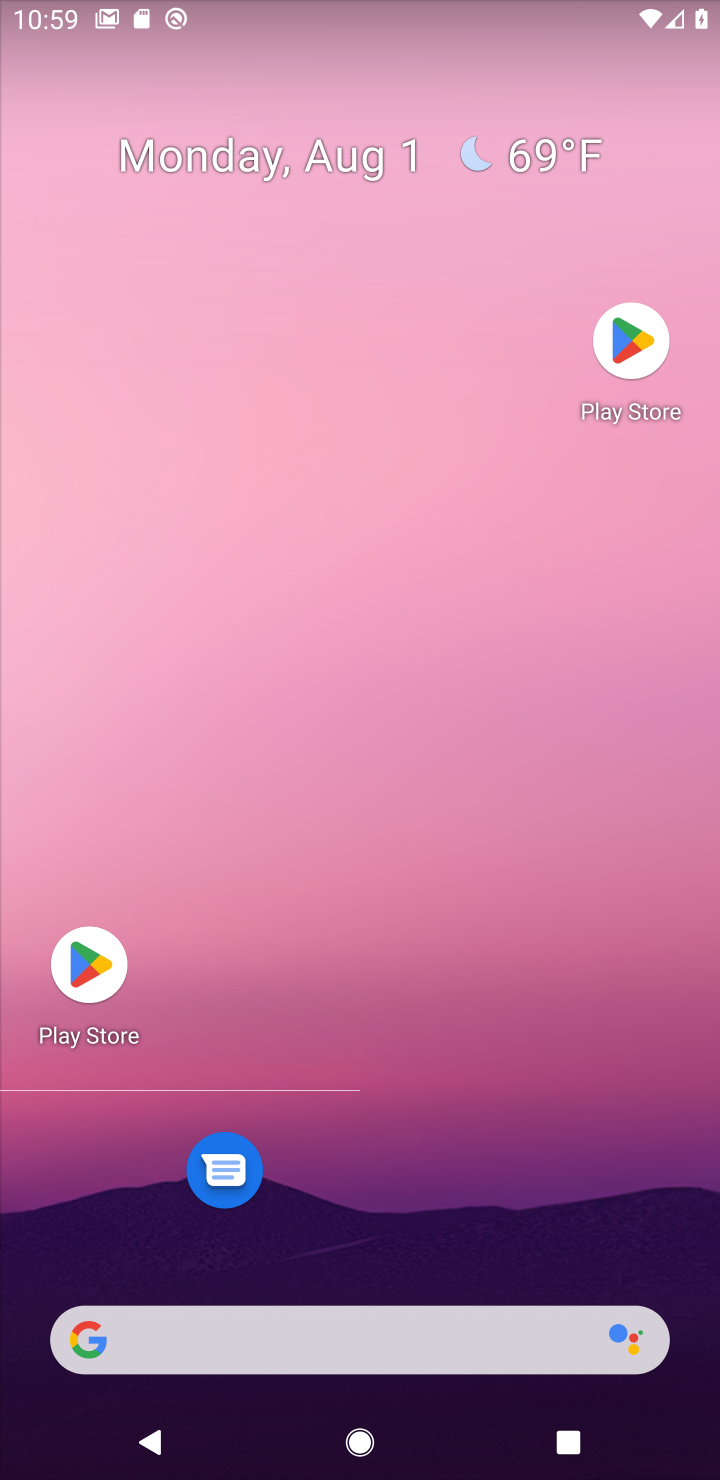
Step 29: click (120, 980)
Your task to perform on an android device: open app "Instagram" Image 30: 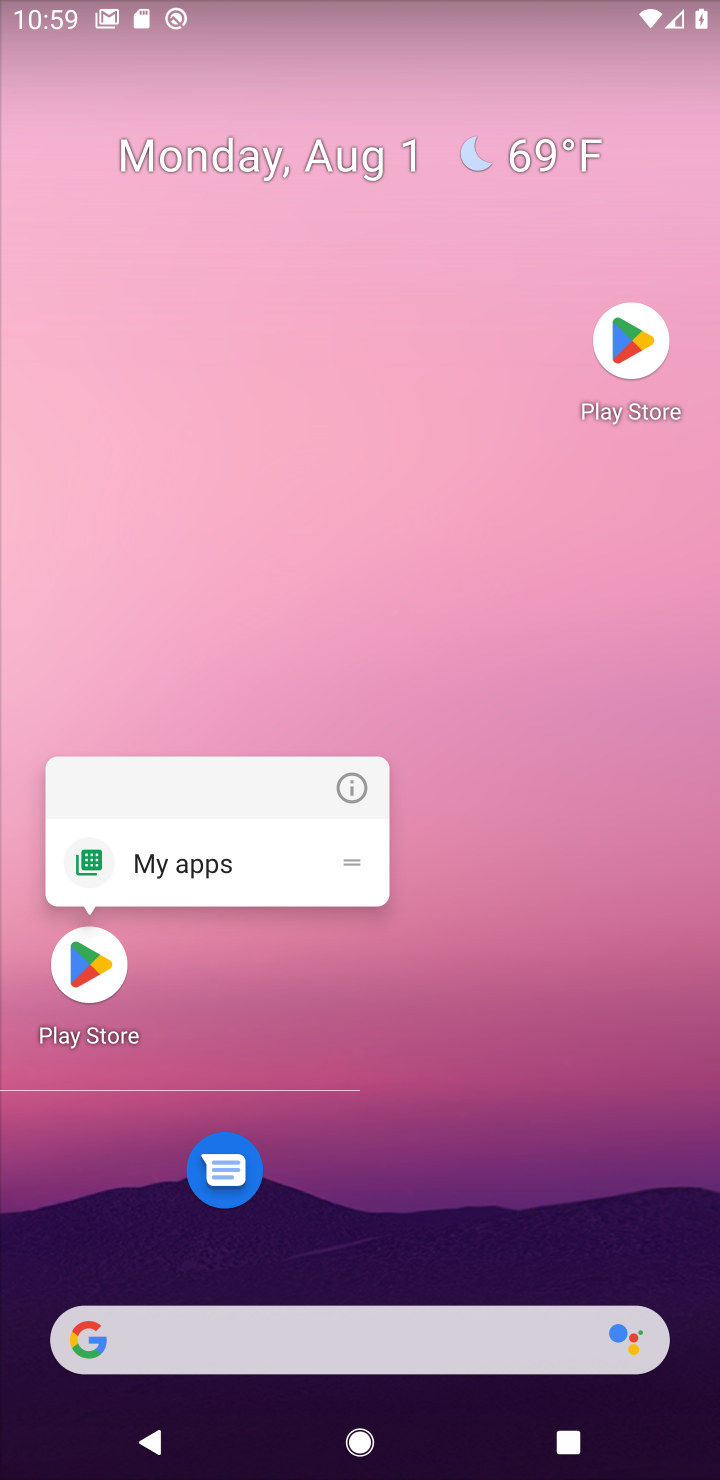
Step 30: click (190, 848)
Your task to perform on an android device: open app "Instagram" Image 31: 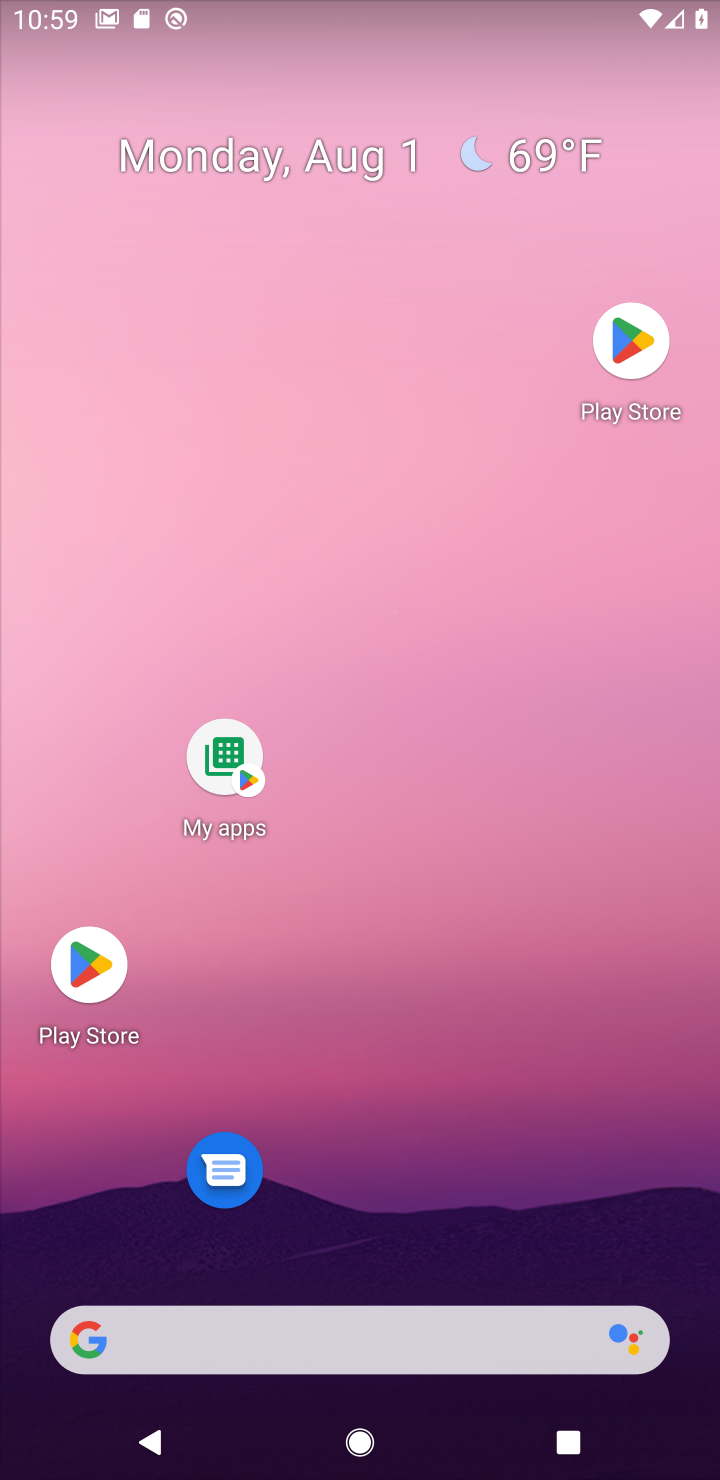
Step 31: click (63, 970)
Your task to perform on an android device: open app "Instagram" Image 32: 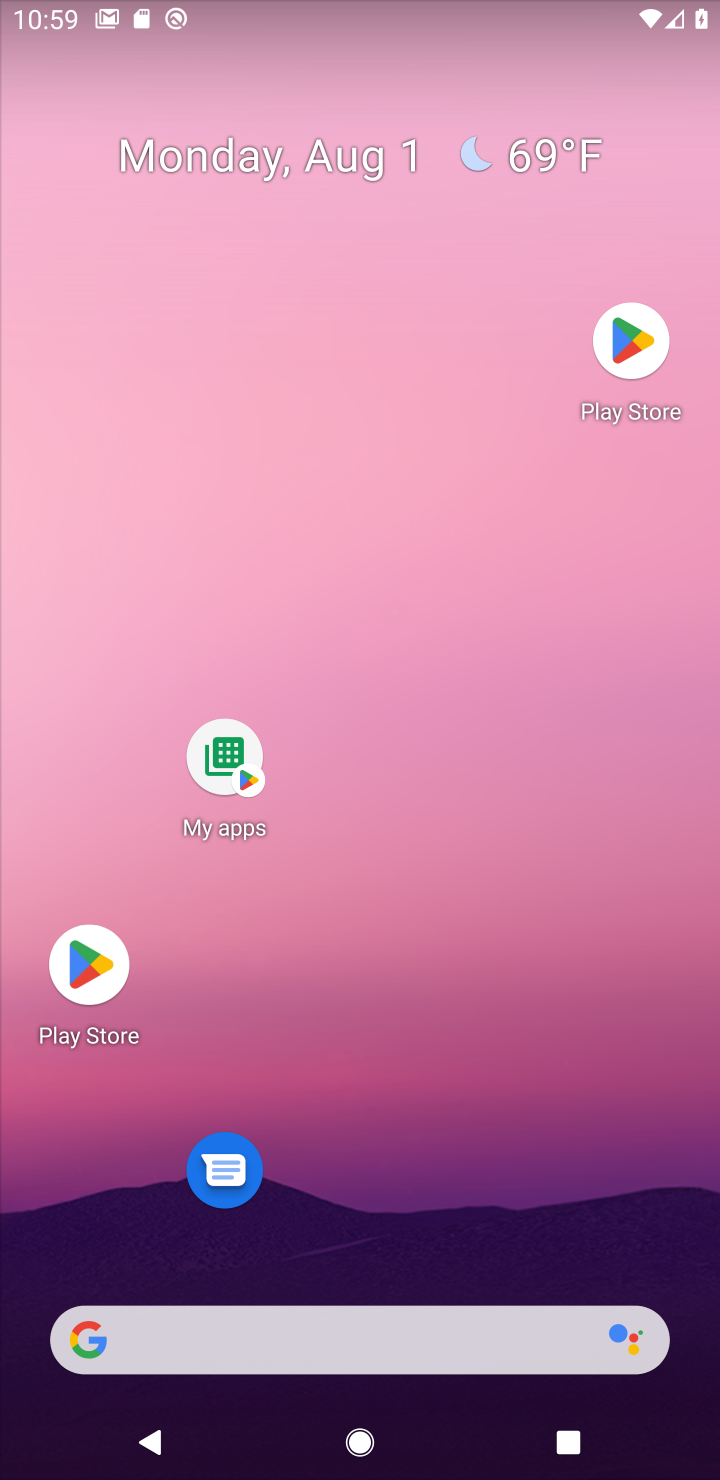
Step 32: click (64, 968)
Your task to perform on an android device: open app "Instagram" Image 33: 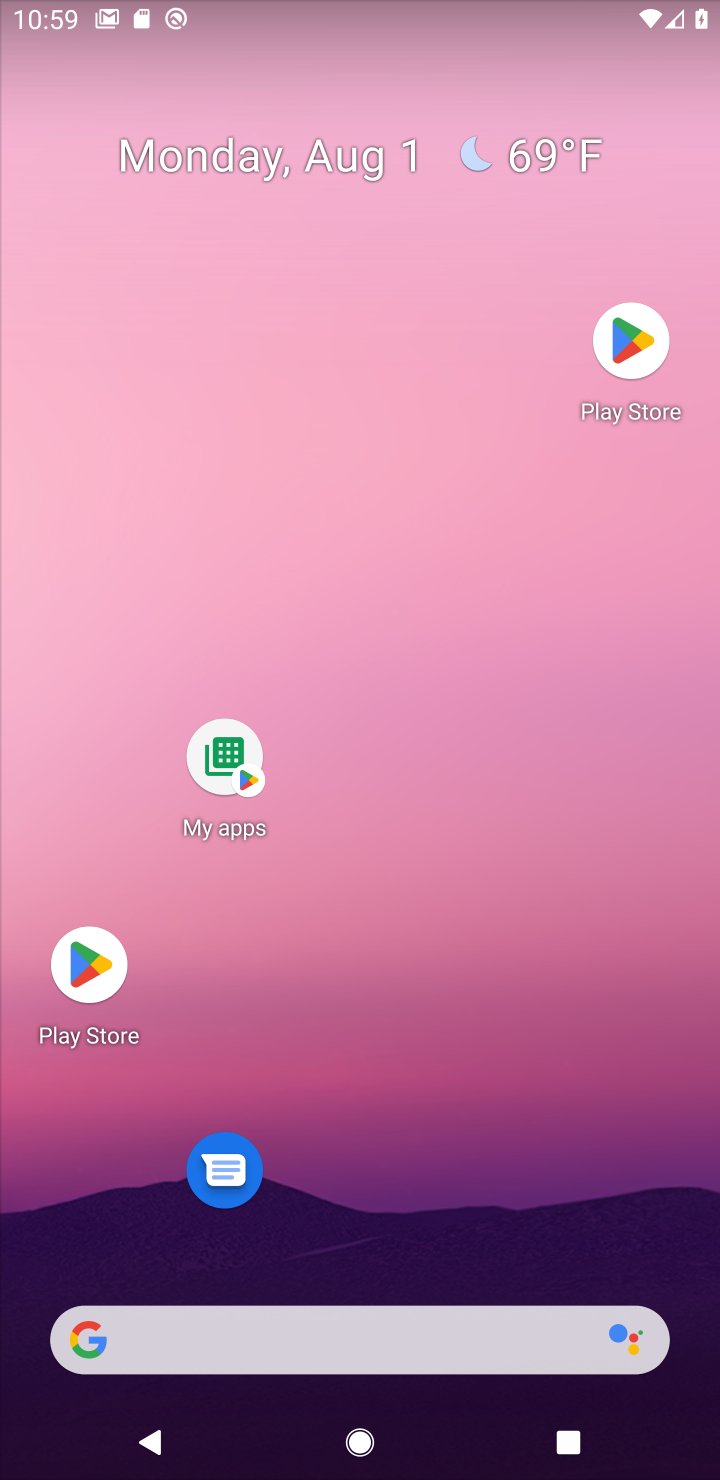
Step 33: click (93, 977)
Your task to perform on an android device: open app "Instagram" Image 34: 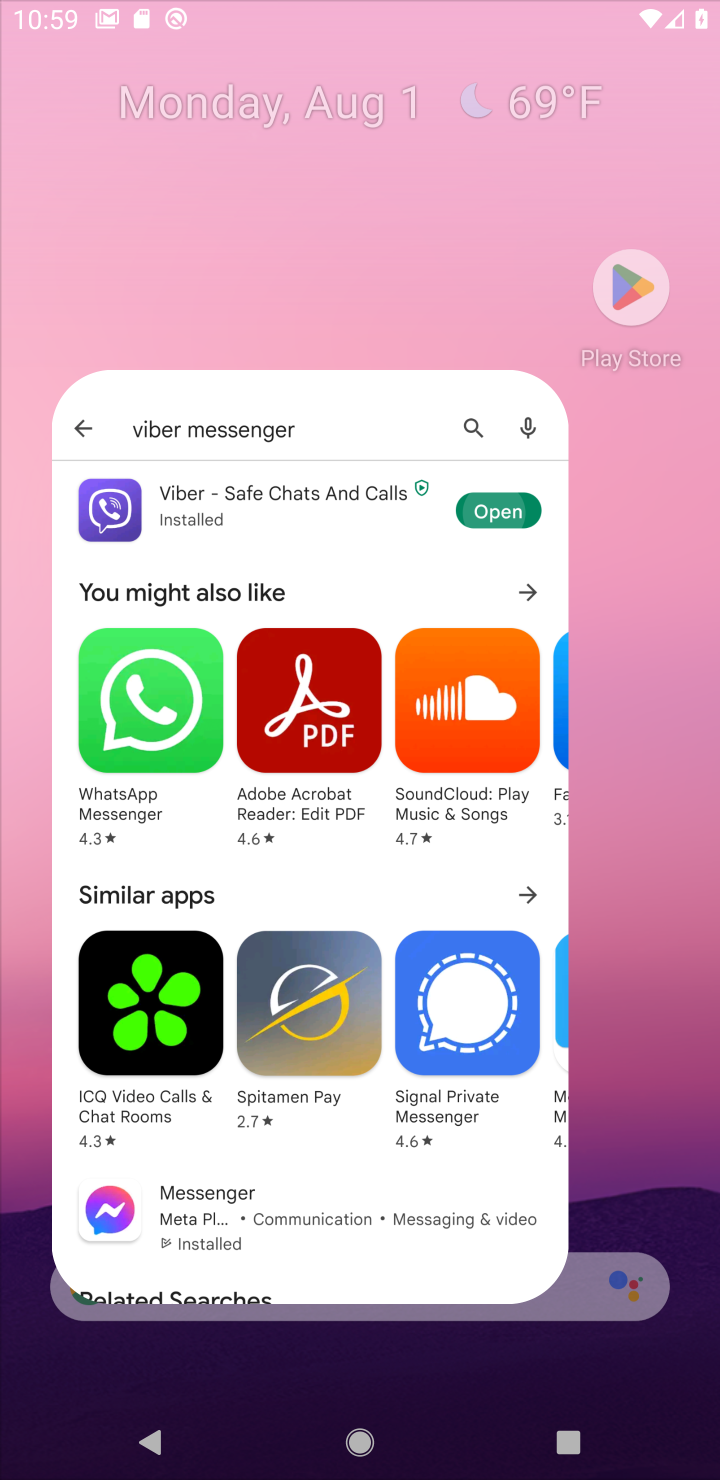
Step 34: click (74, 950)
Your task to perform on an android device: open app "Instagram" Image 35: 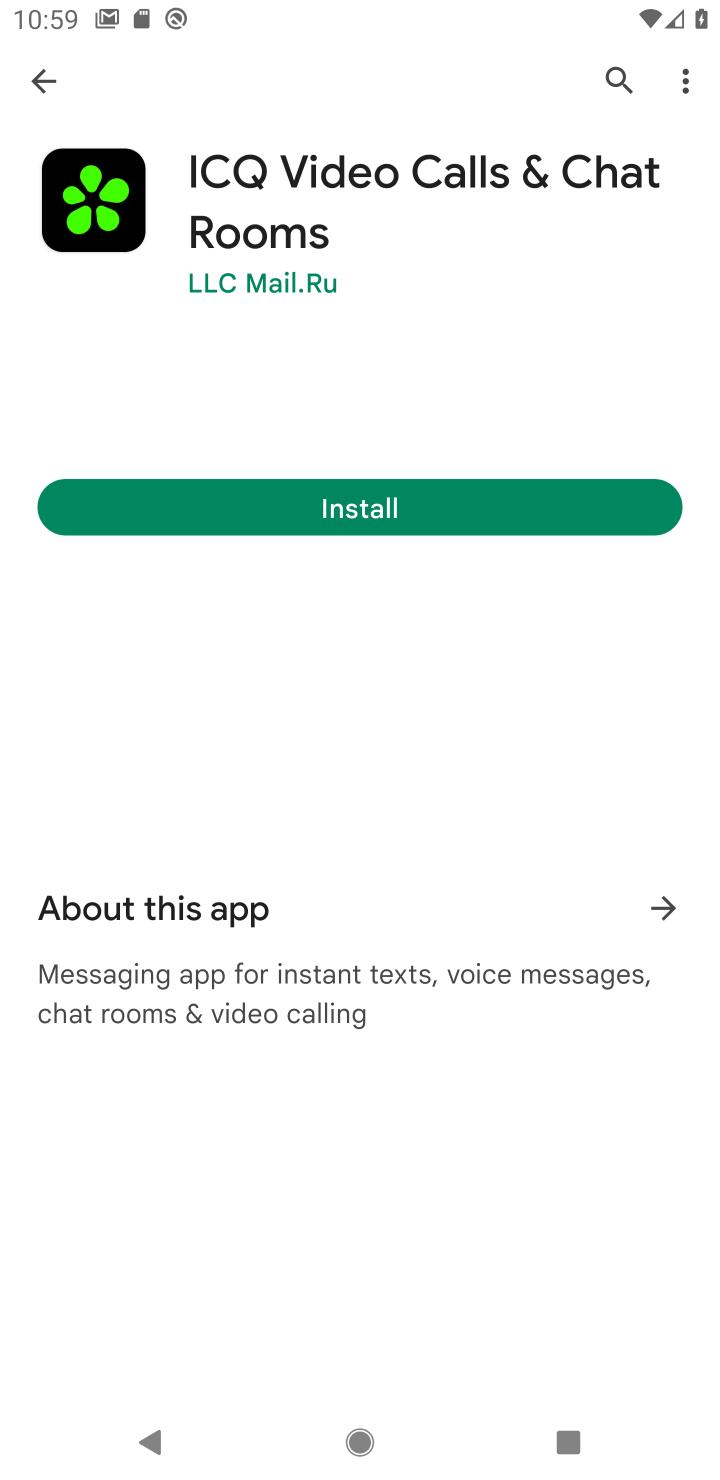
Step 35: click (89, 938)
Your task to perform on an android device: open app "Instagram" Image 36: 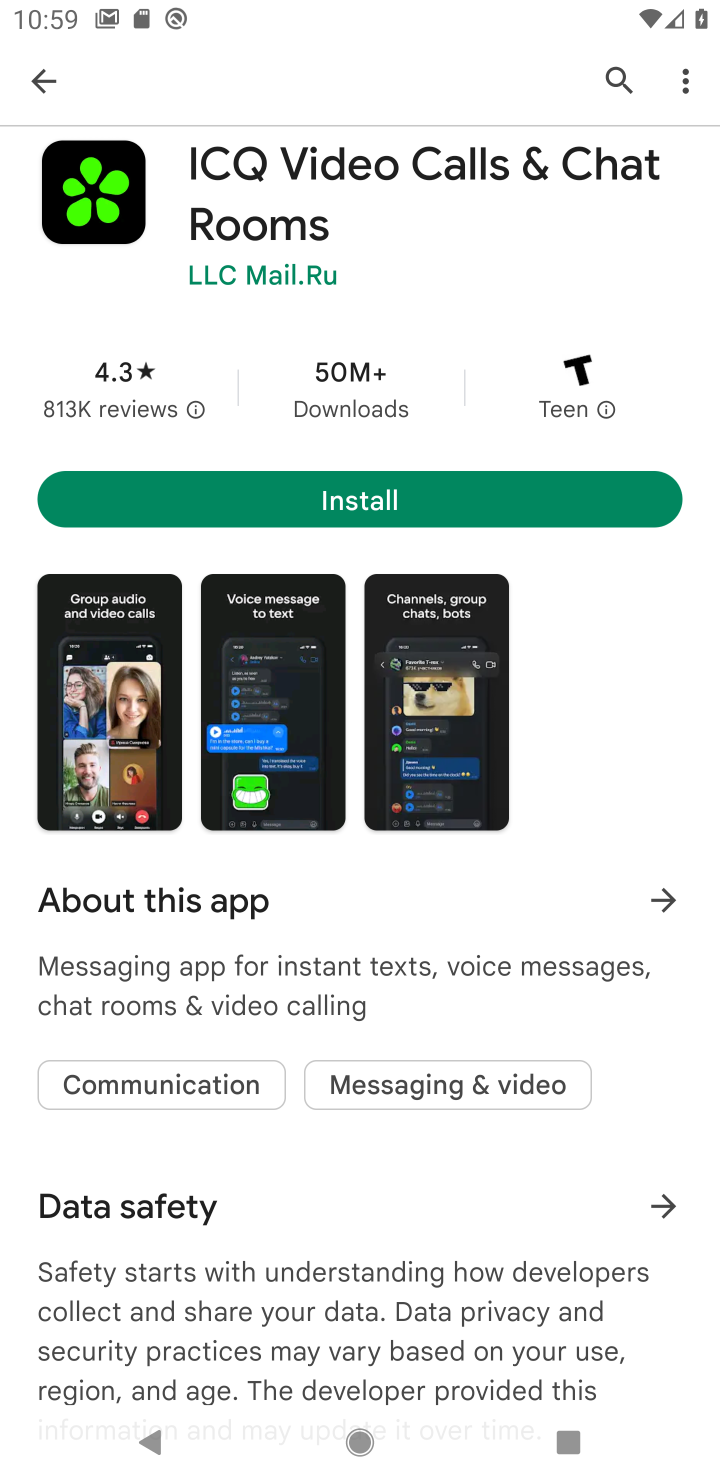
Step 36: click (57, 70)
Your task to perform on an android device: open app "Instagram" Image 37: 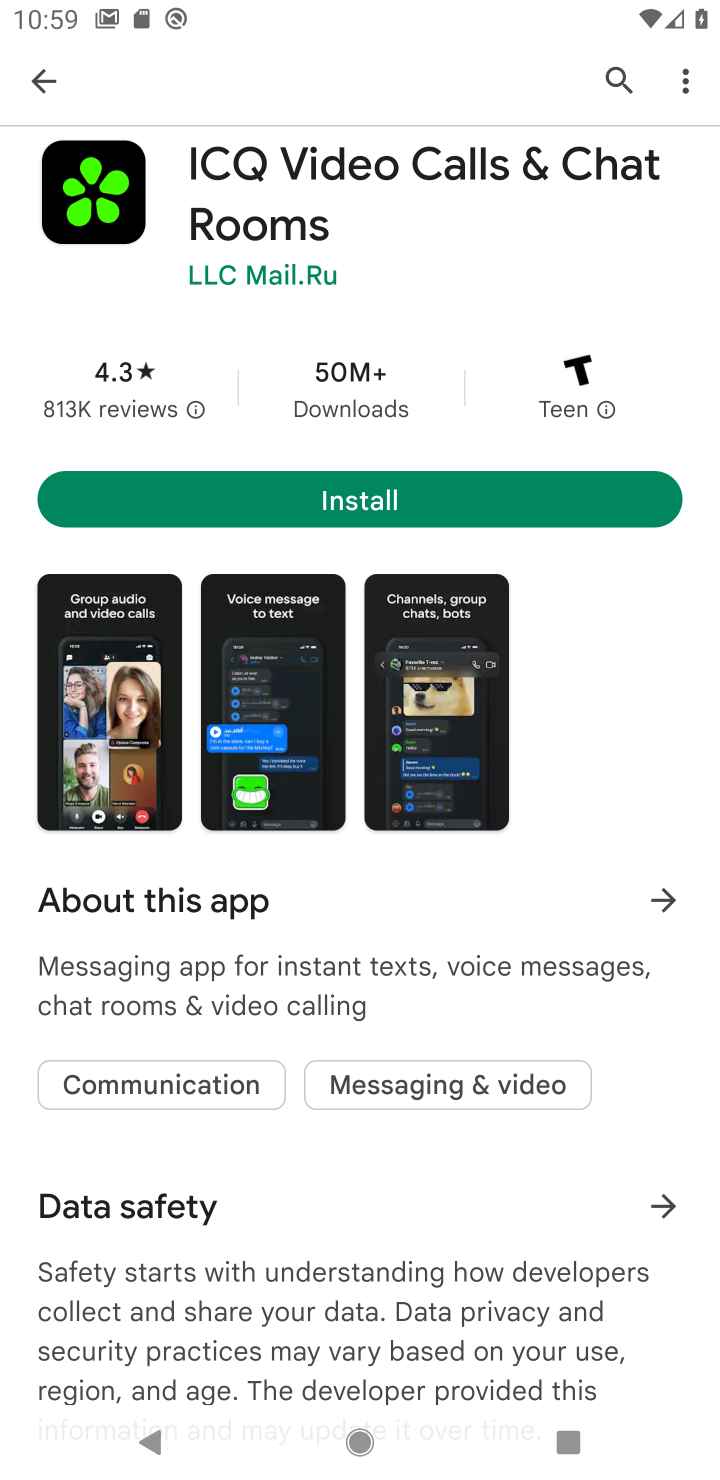
Step 37: click (52, 71)
Your task to perform on an android device: open app "Instagram" Image 38: 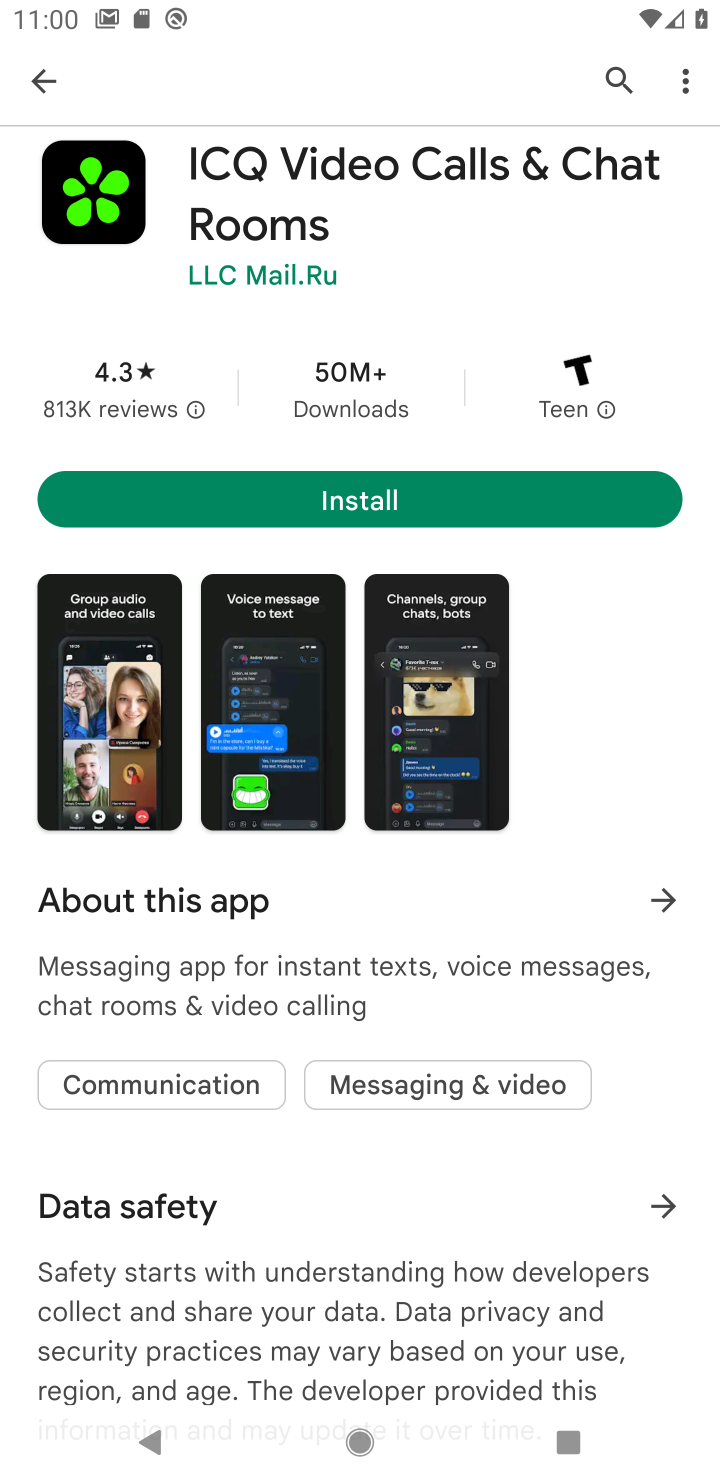
Step 38: click (51, 88)
Your task to perform on an android device: open app "Instagram" Image 39: 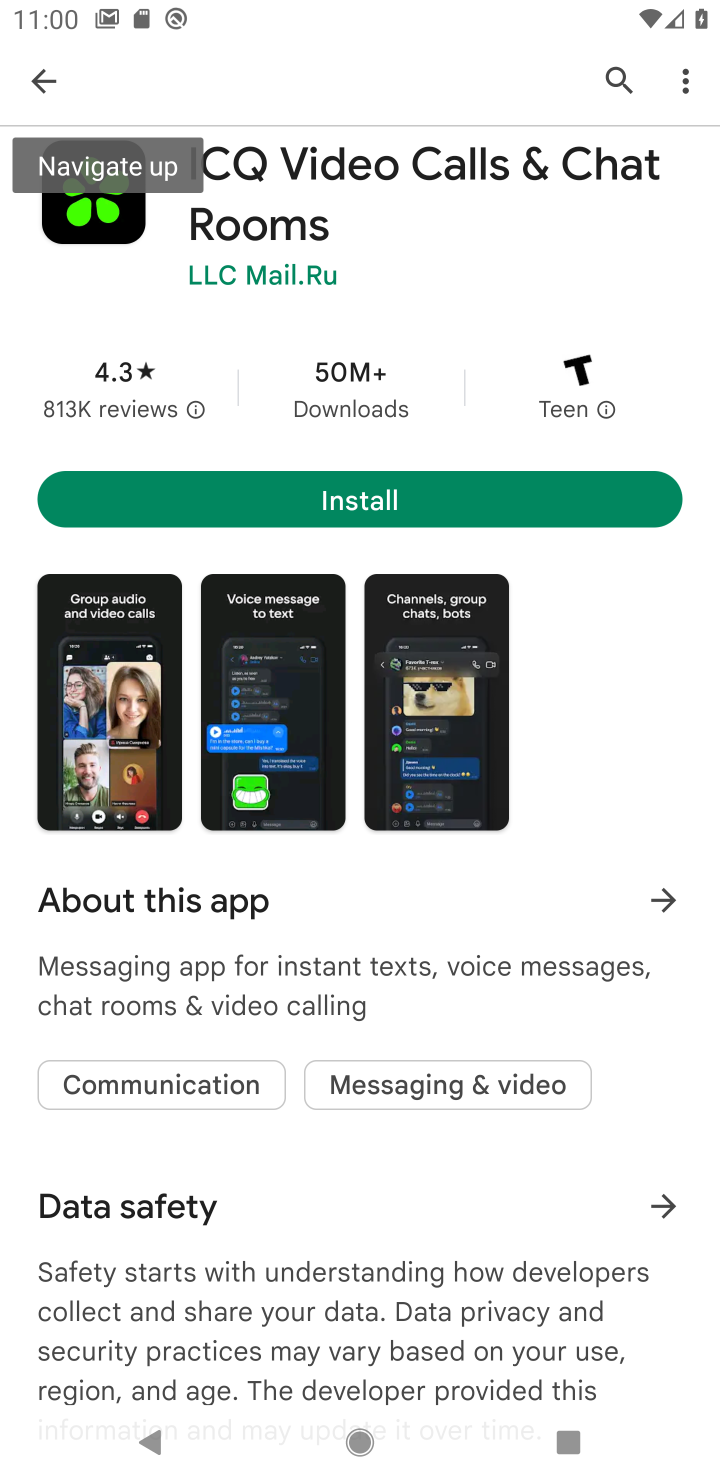
Step 39: click (49, 86)
Your task to perform on an android device: open app "Instagram" Image 40: 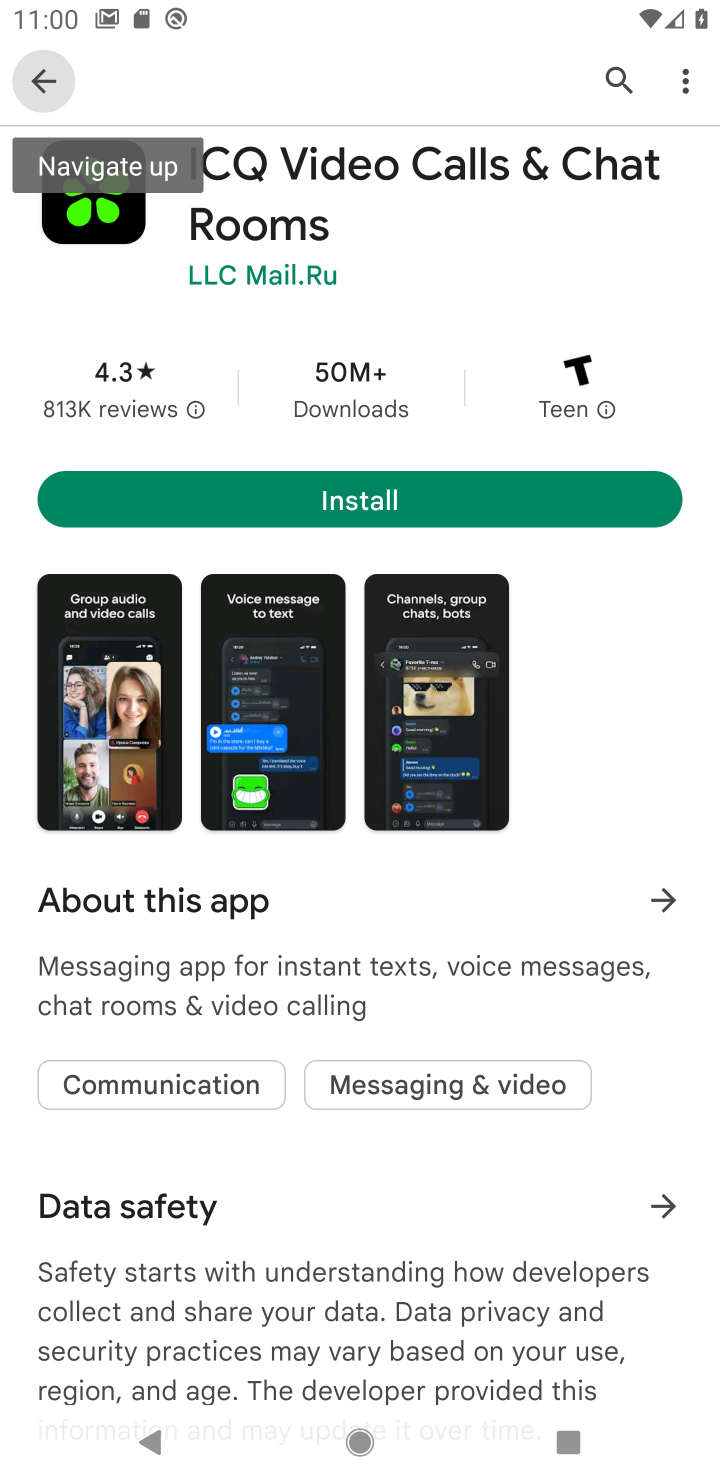
Step 40: click (49, 86)
Your task to perform on an android device: open app "Instagram" Image 41: 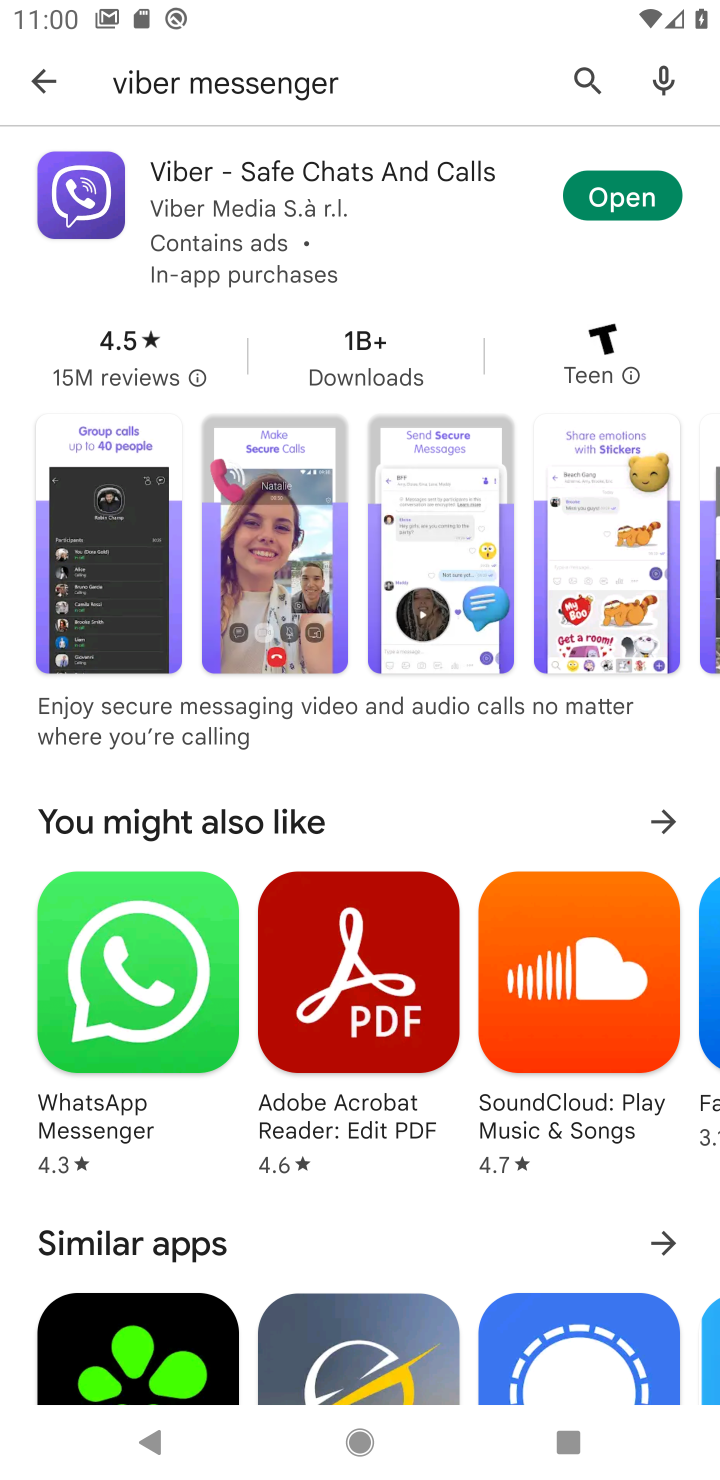
Step 41: click (579, 69)
Your task to perform on an android device: open app "Instagram" Image 42: 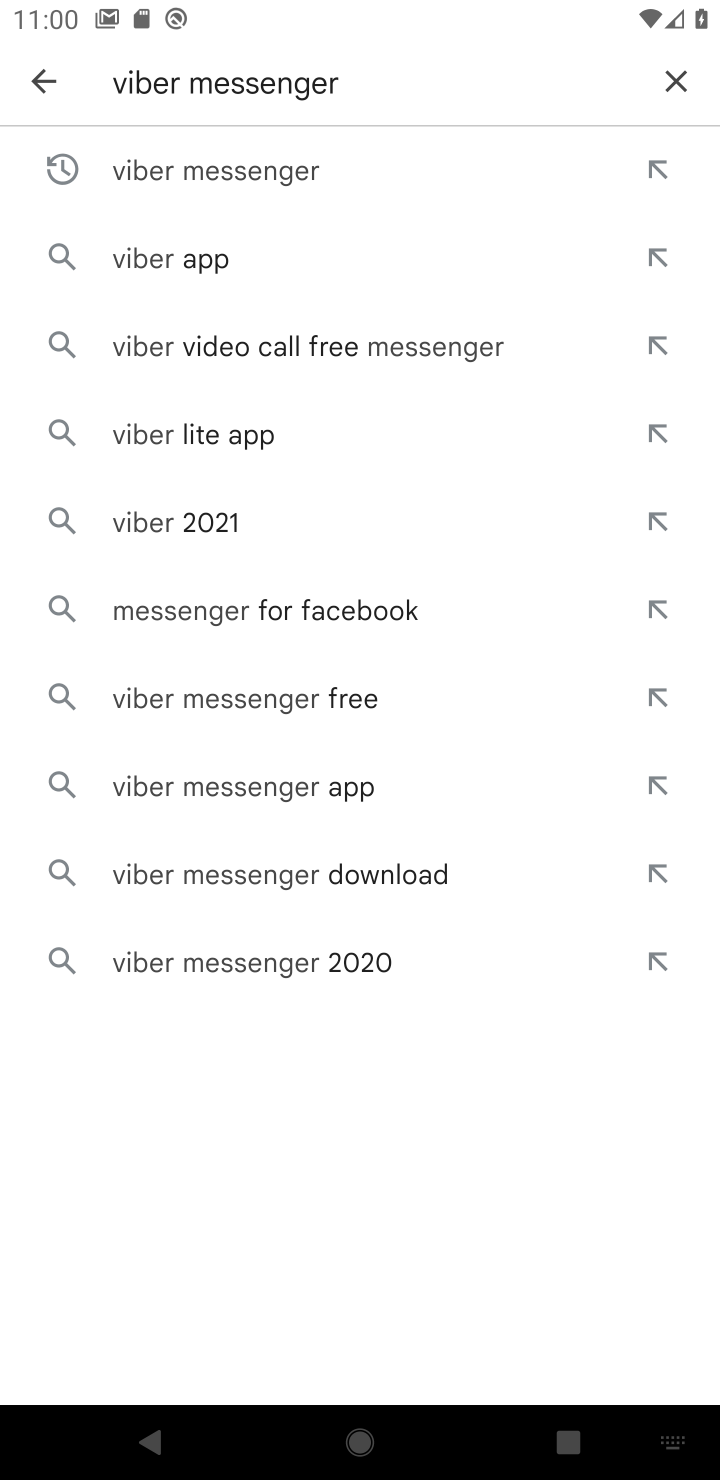
Step 42: click (681, 80)
Your task to perform on an android device: open app "Instagram" Image 43: 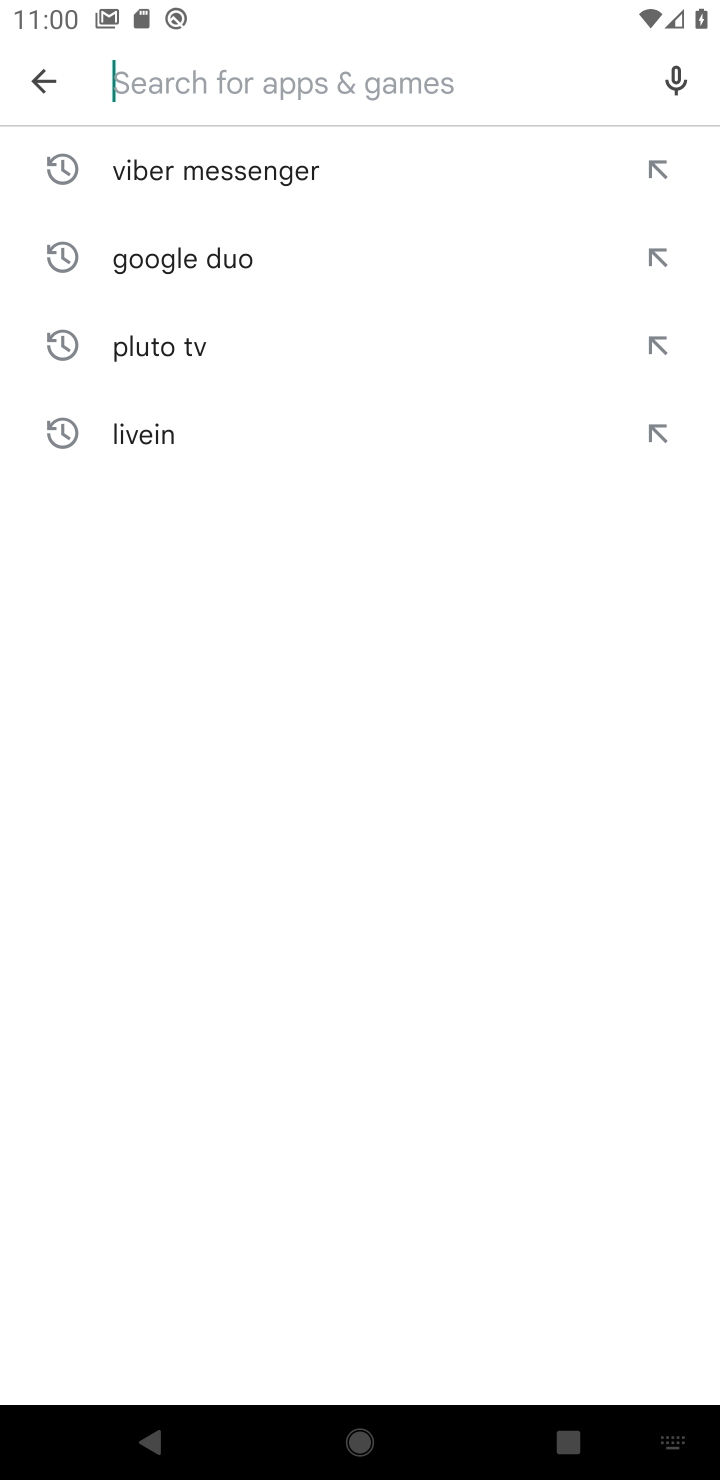
Step 43: type "instagram"
Your task to perform on an android device: open app "Instagram" Image 44: 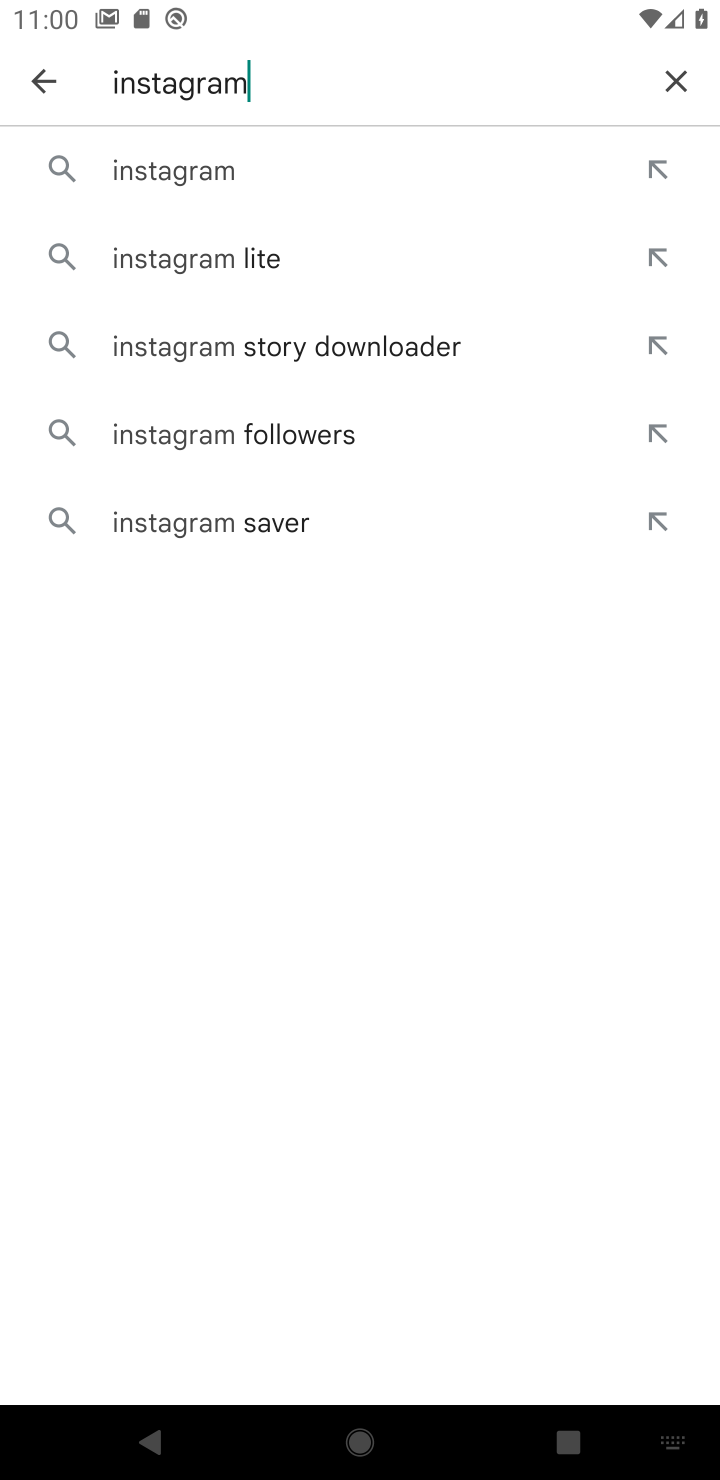
Step 44: click (168, 184)
Your task to perform on an android device: open app "Instagram" Image 45: 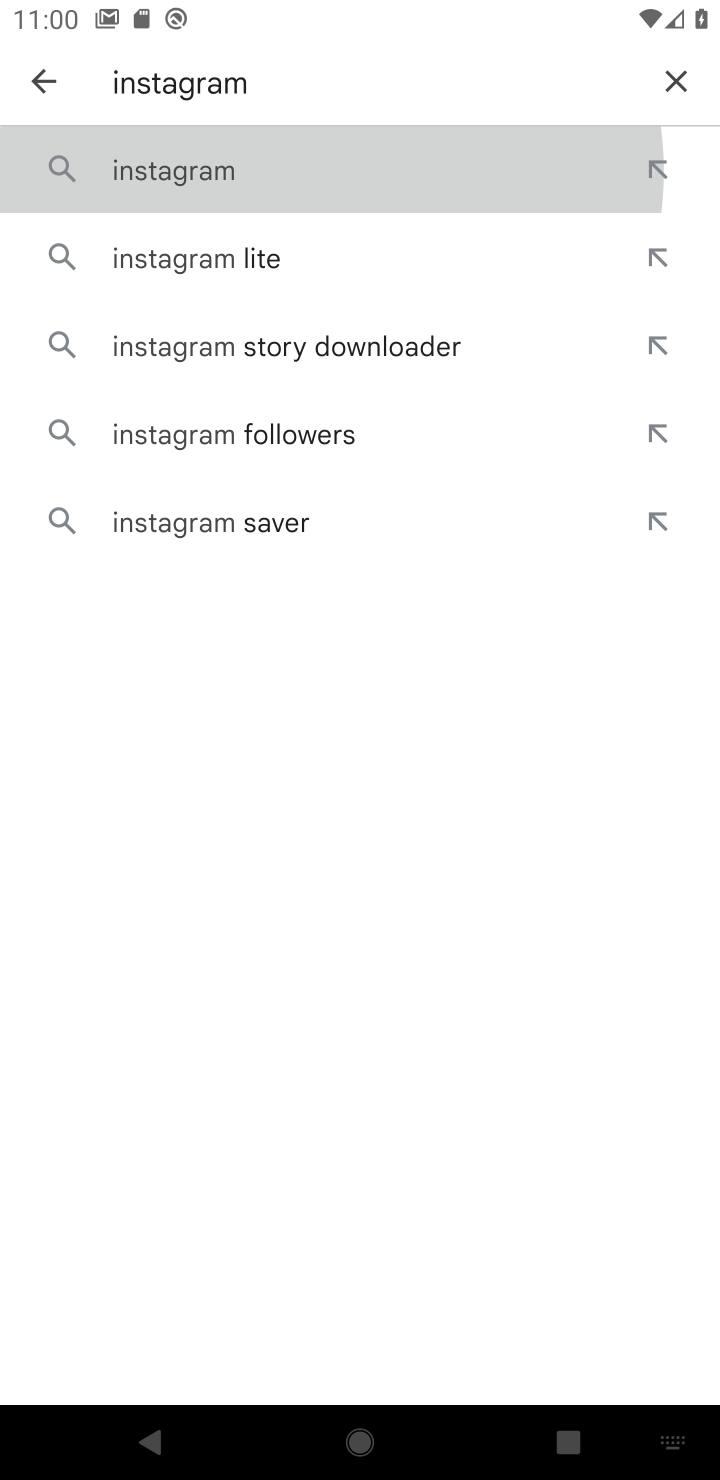
Step 45: click (169, 181)
Your task to perform on an android device: open app "Instagram" Image 46: 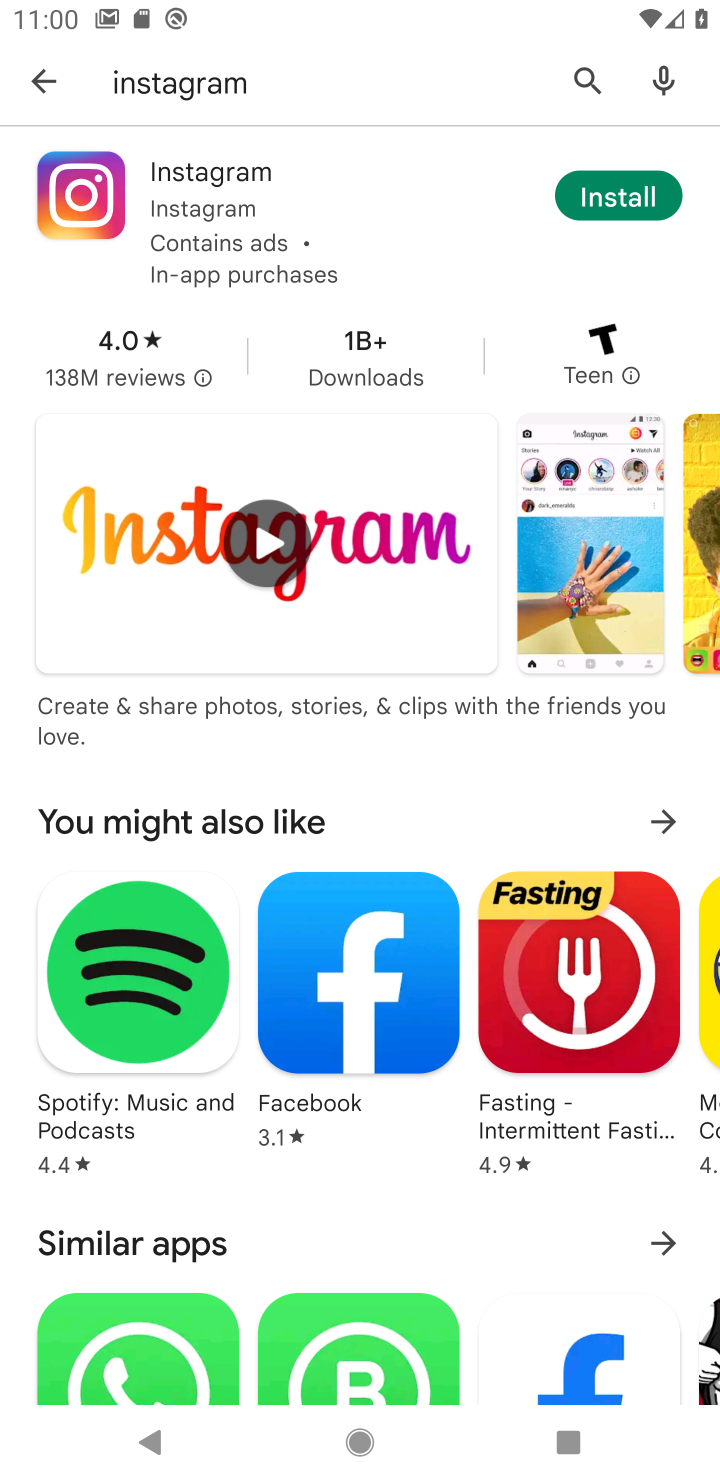
Step 46: click (593, 199)
Your task to perform on an android device: open app "Instagram" Image 47: 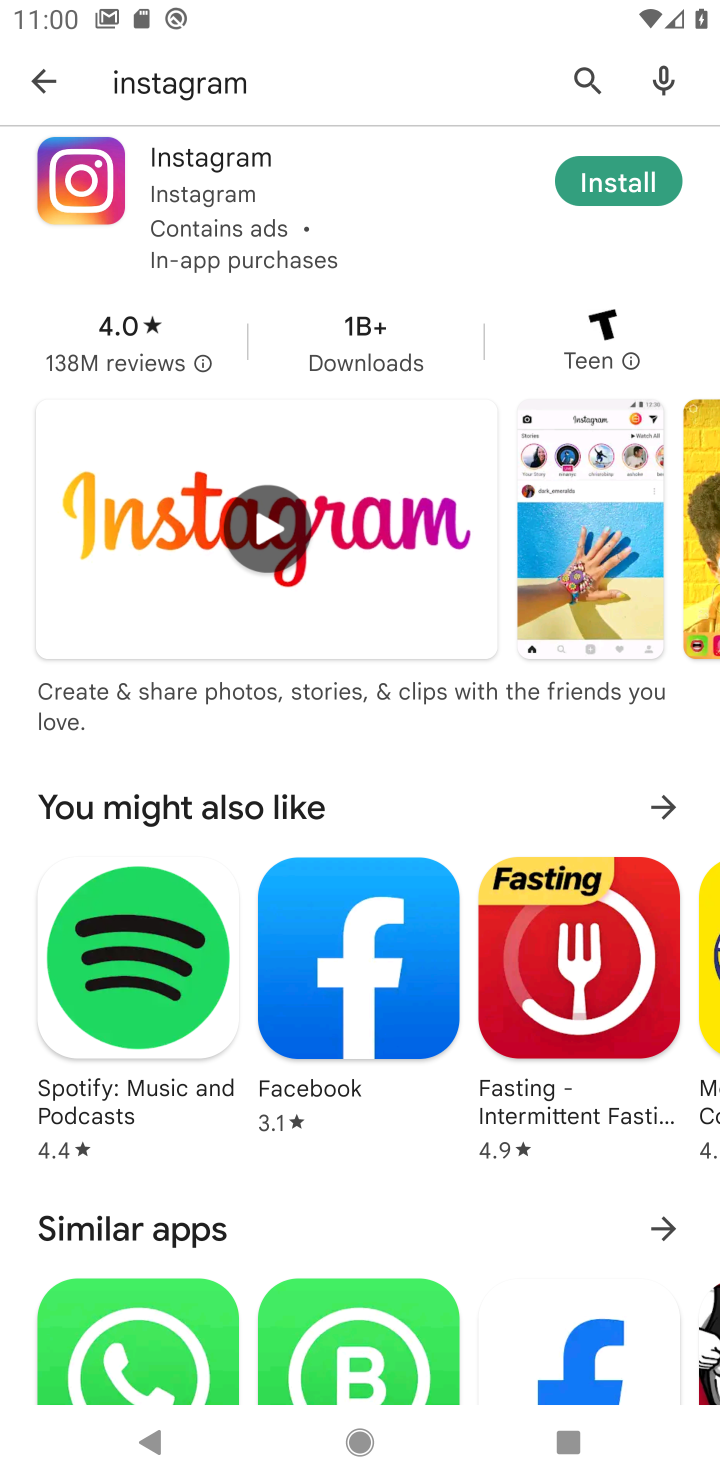
Step 47: click (606, 180)
Your task to perform on an android device: open app "Instagram" Image 48: 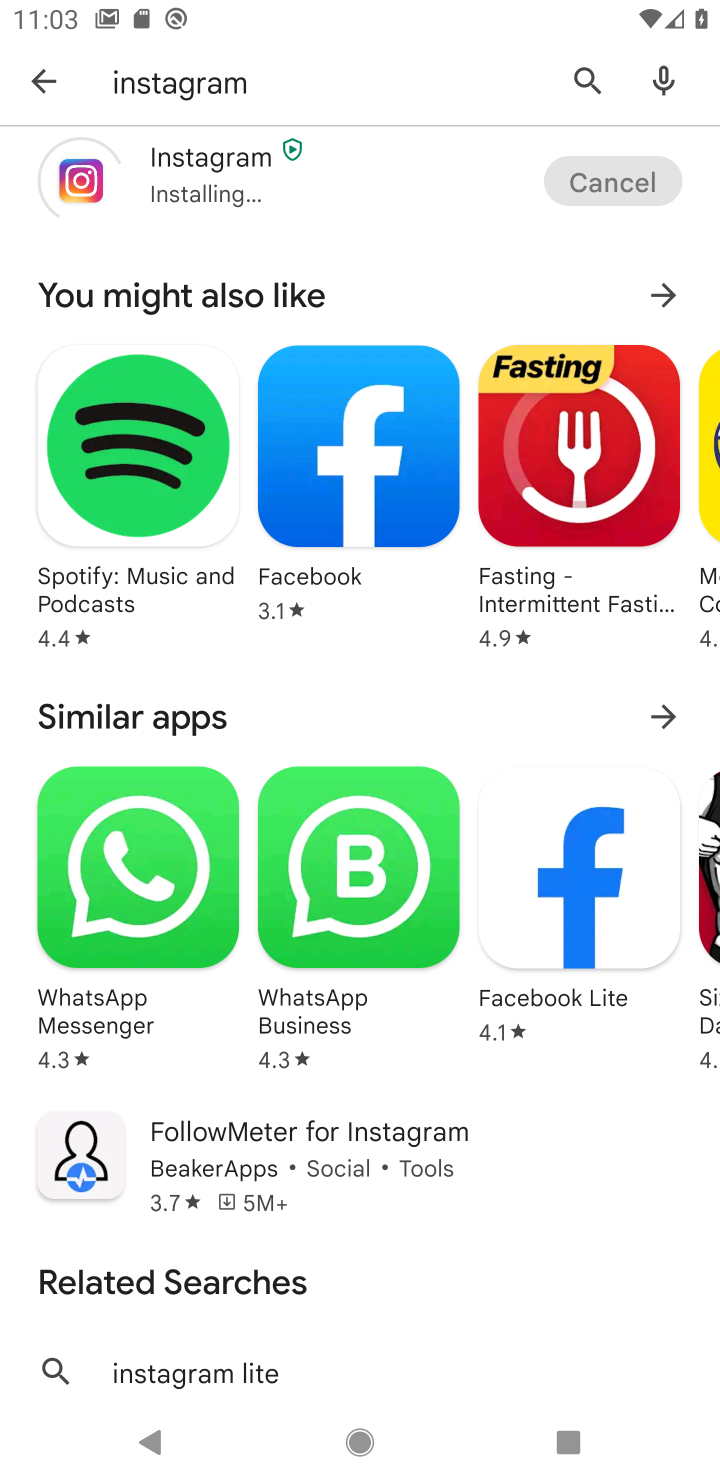
Step 48: click (51, 68)
Your task to perform on an android device: open app "Instagram" Image 49: 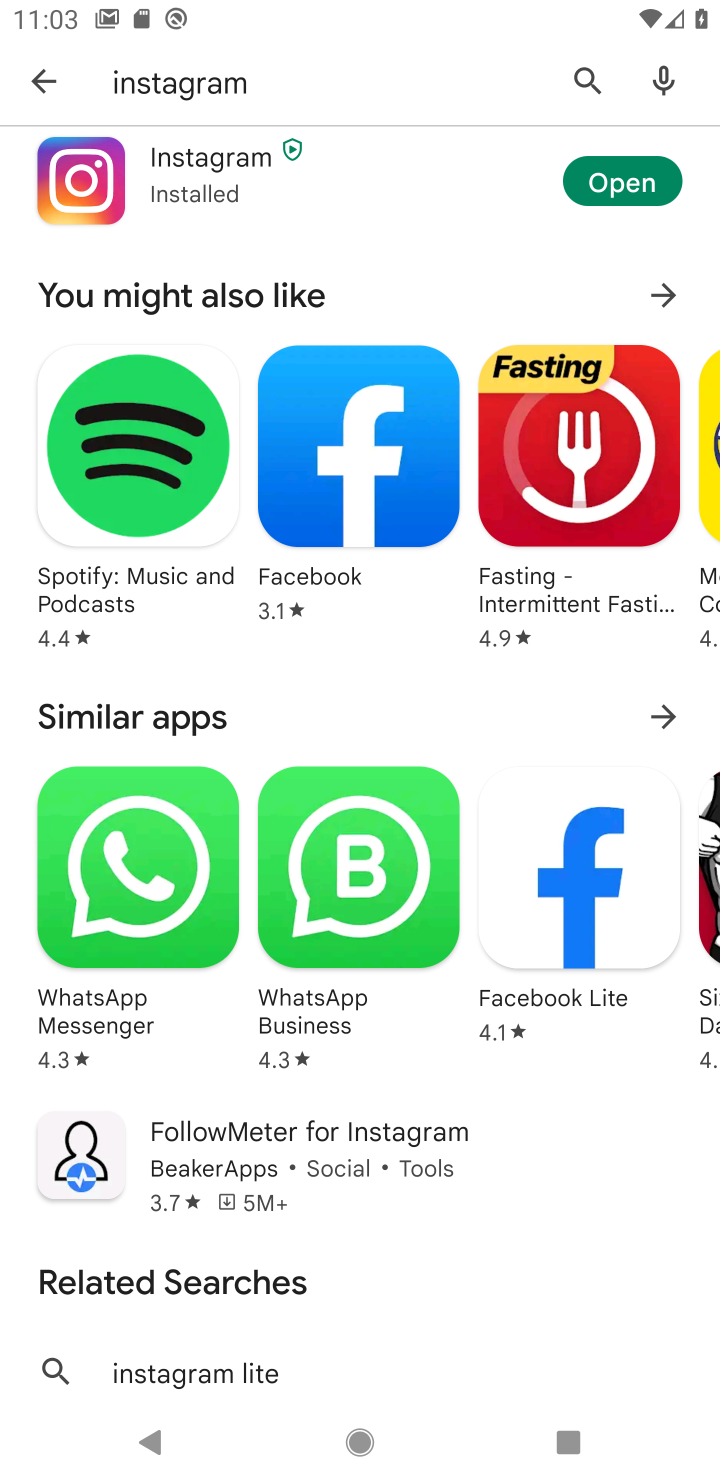
Step 49: click (622, 177)
Your task to perform on an android device: open app "Instagram" Image 50: 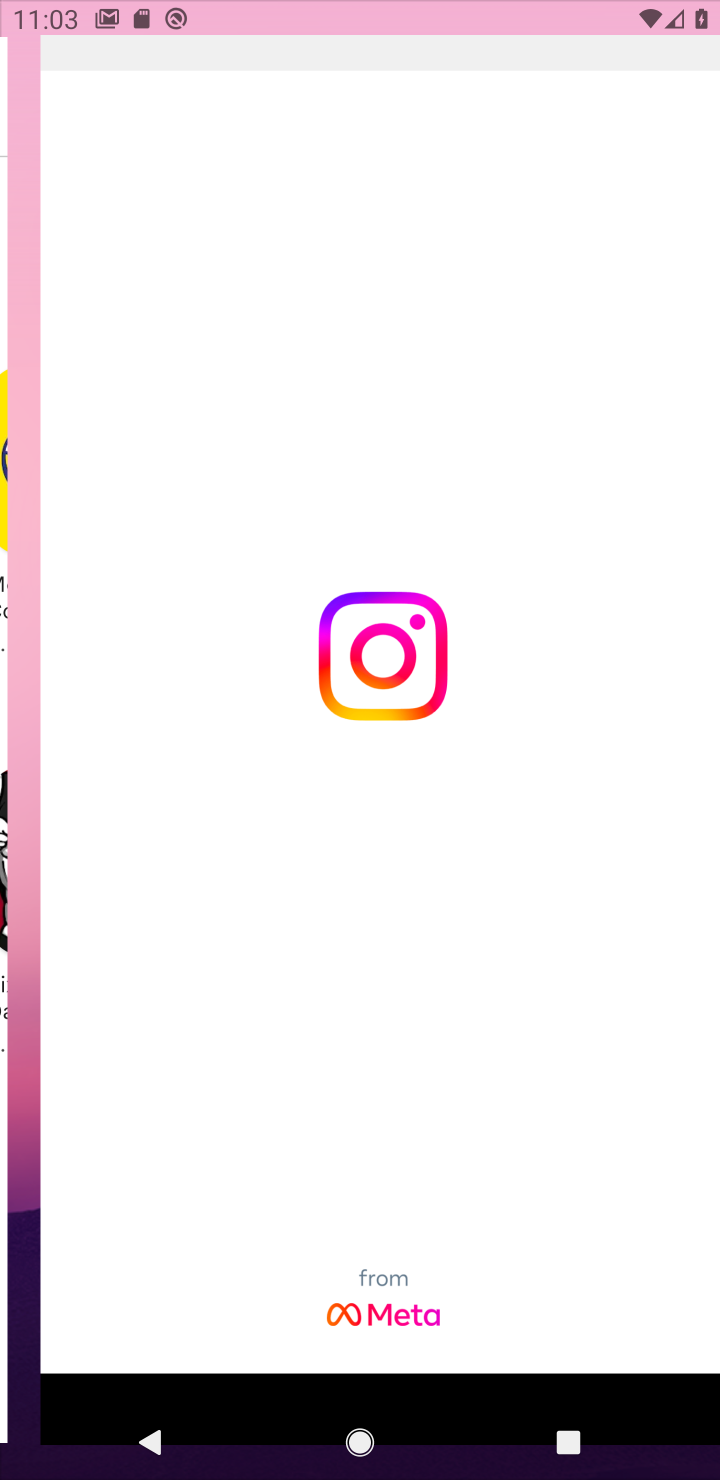
Step 50: click (40, 68)
Your task to perform on an android device: open app "Instagram" Image 51: 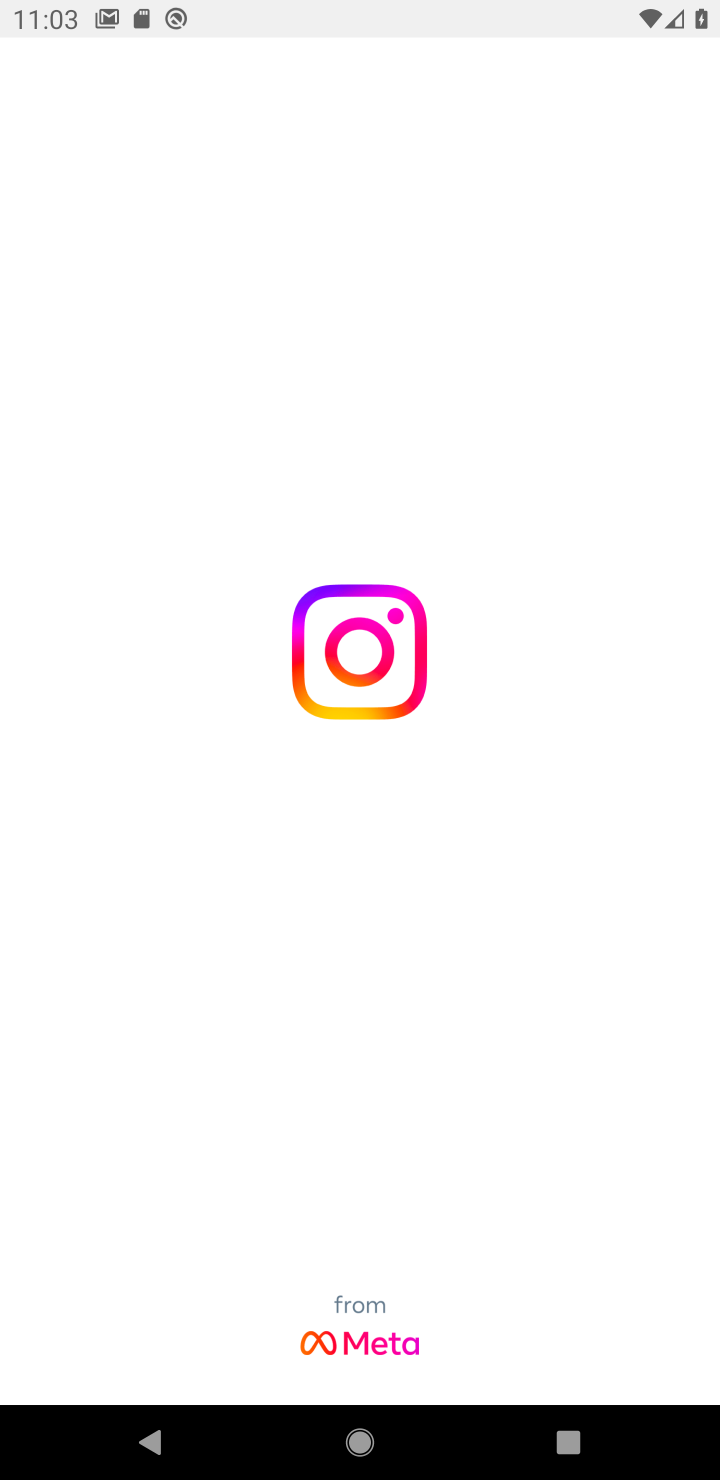
Step 51: press back button
Your task to perform on an android device: open app "Instagram" Image 52: 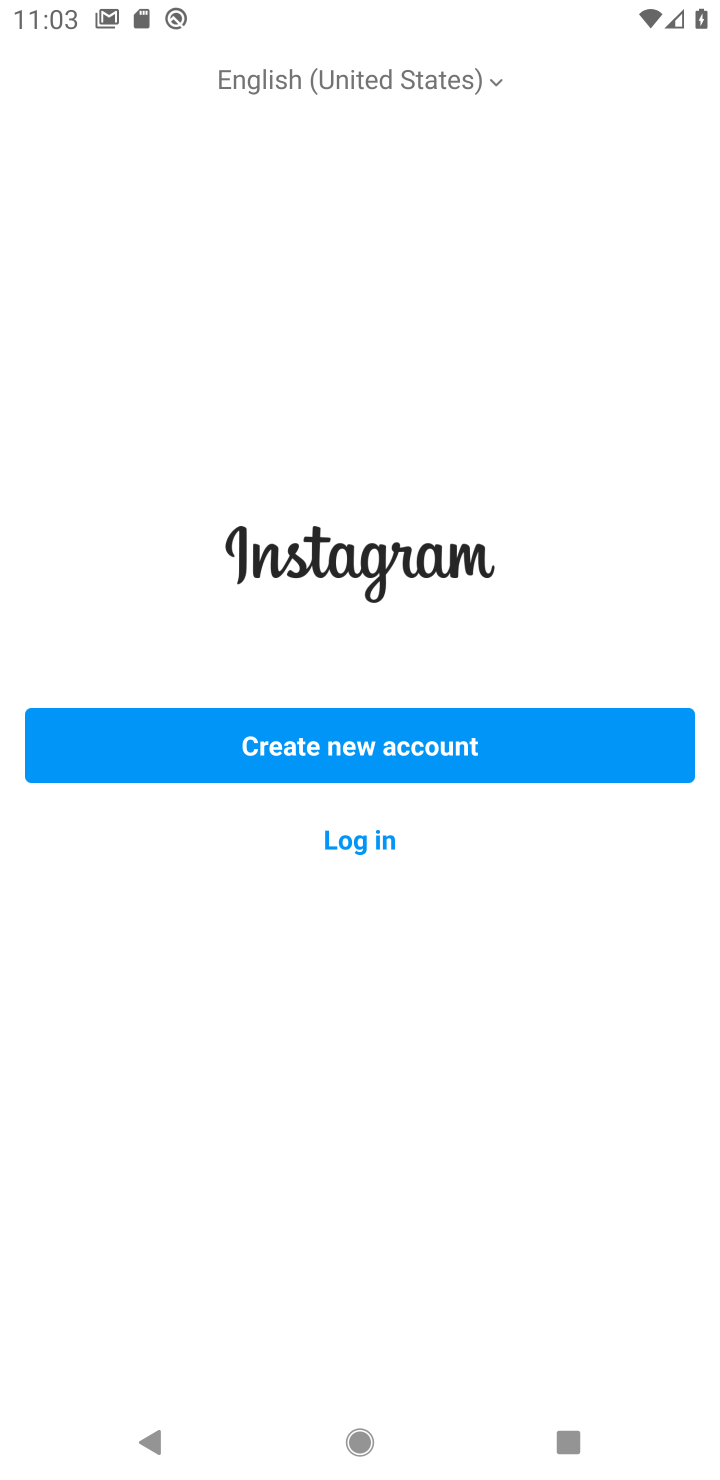
Step 52: press back button
Your task to perform on an android device: open app "Instagram" Image 53: 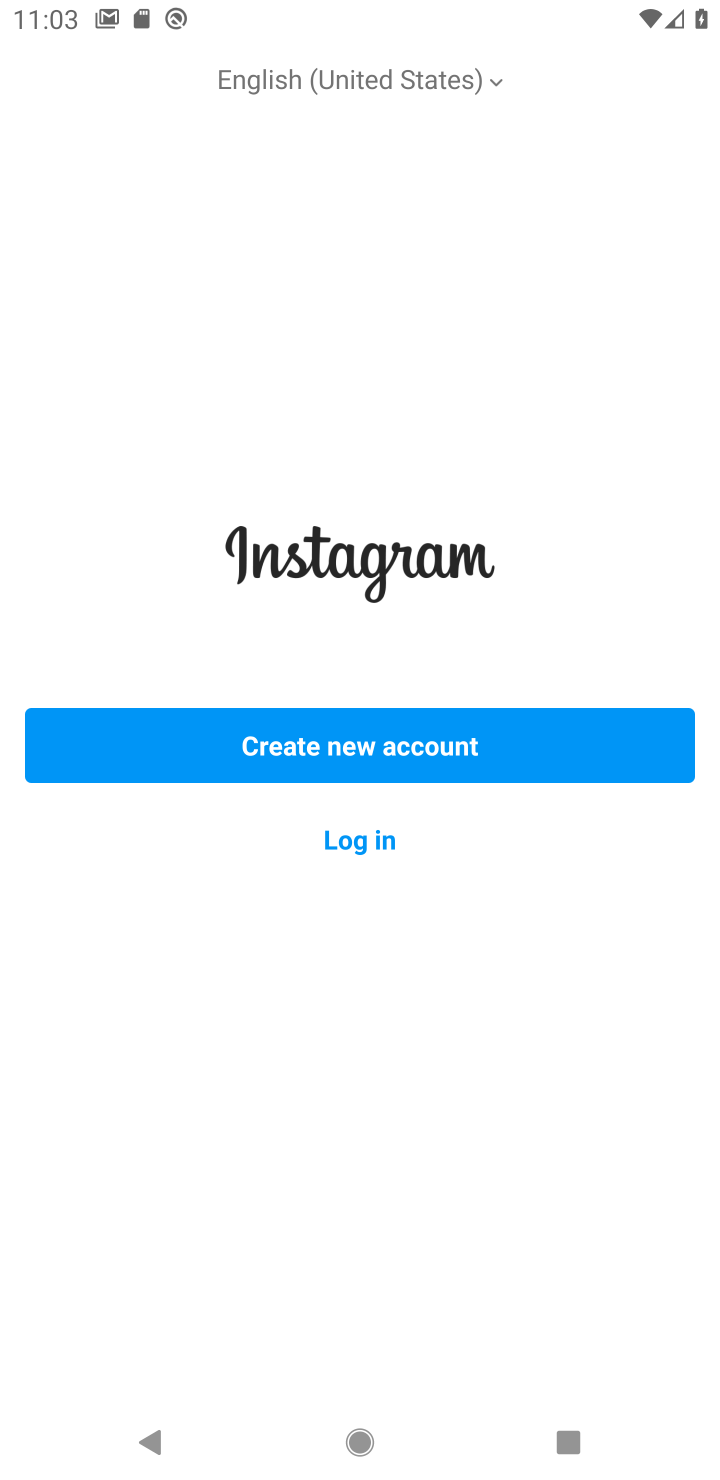
Step 53: press back button
Your task to perform on an android device: open app "Instagram" Image 54: 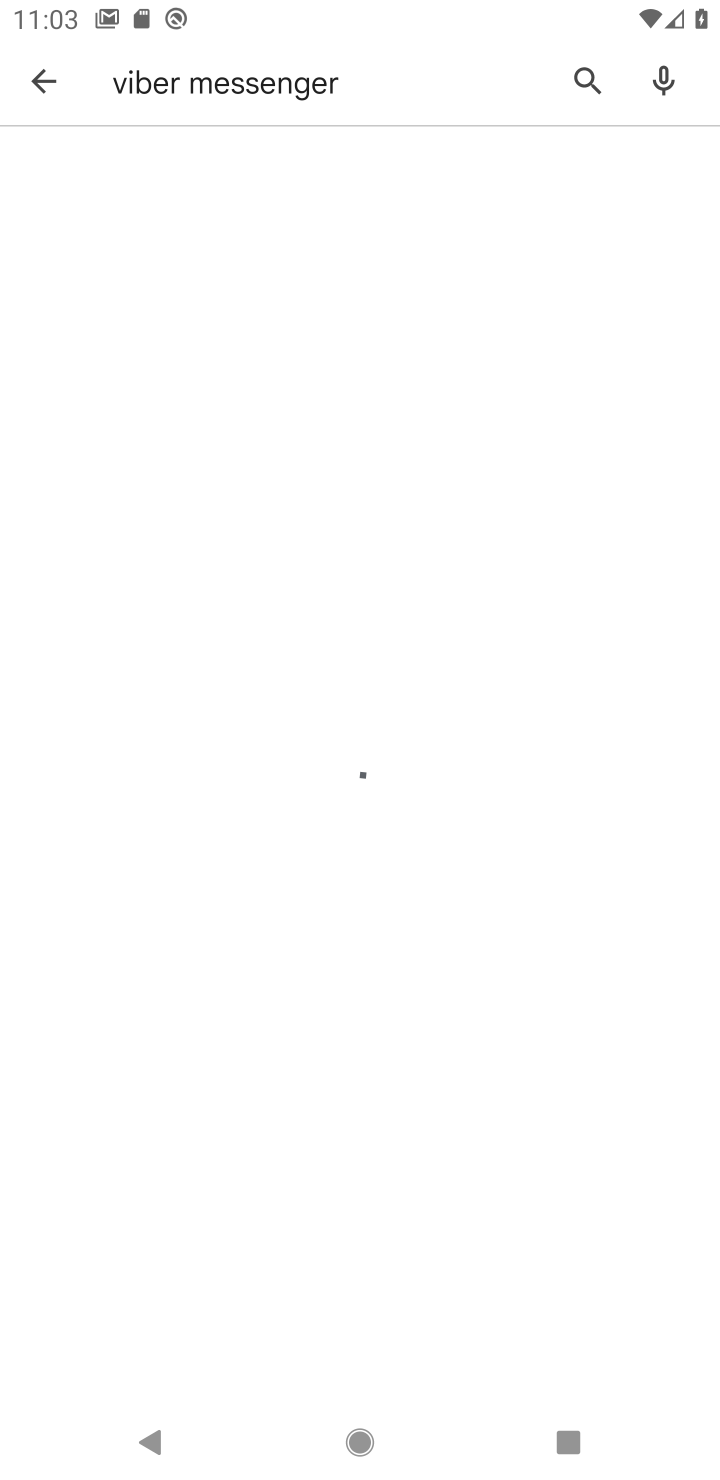
Step 54: press home button
Your task to perform on an android device: open app "Instagram" Image 55: 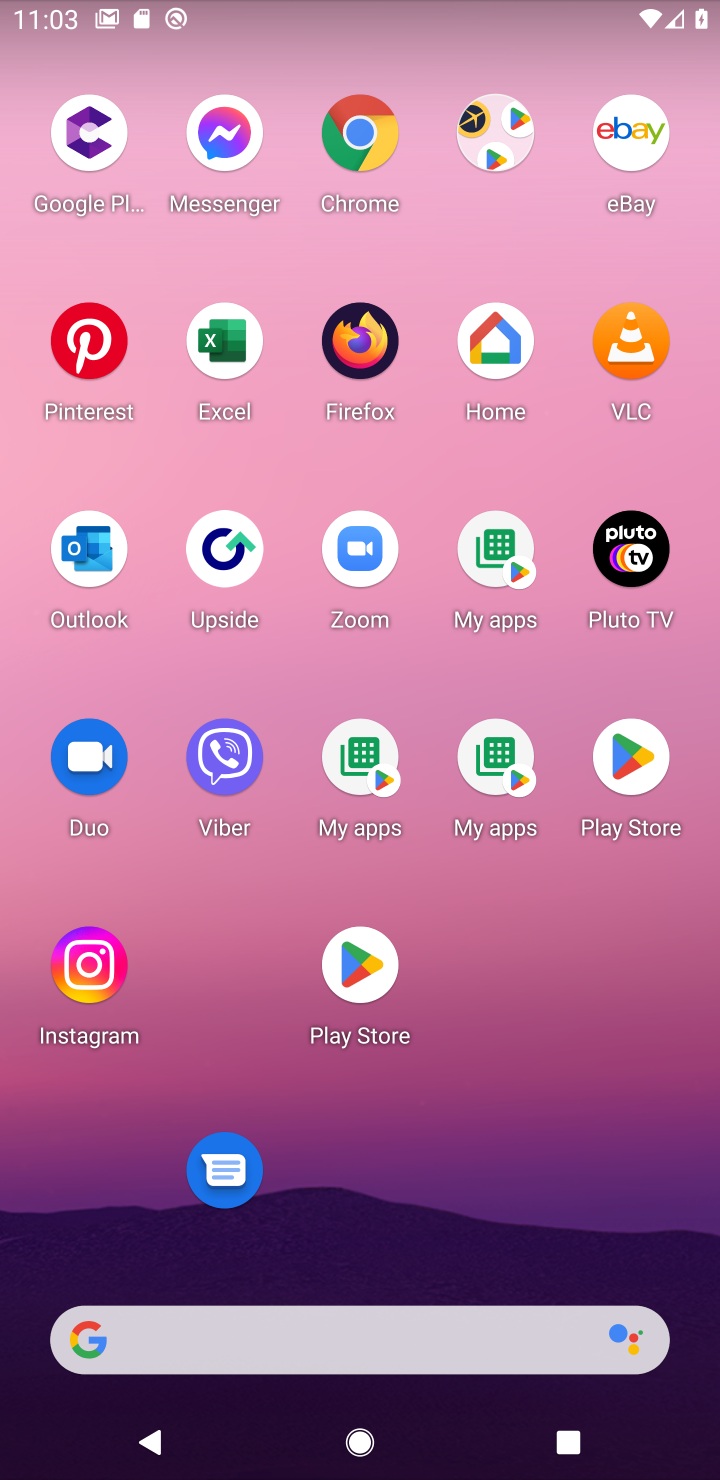
Step 55: click (93, 964)
Your task to perform on an android device: open app "Instagram" Image 56: 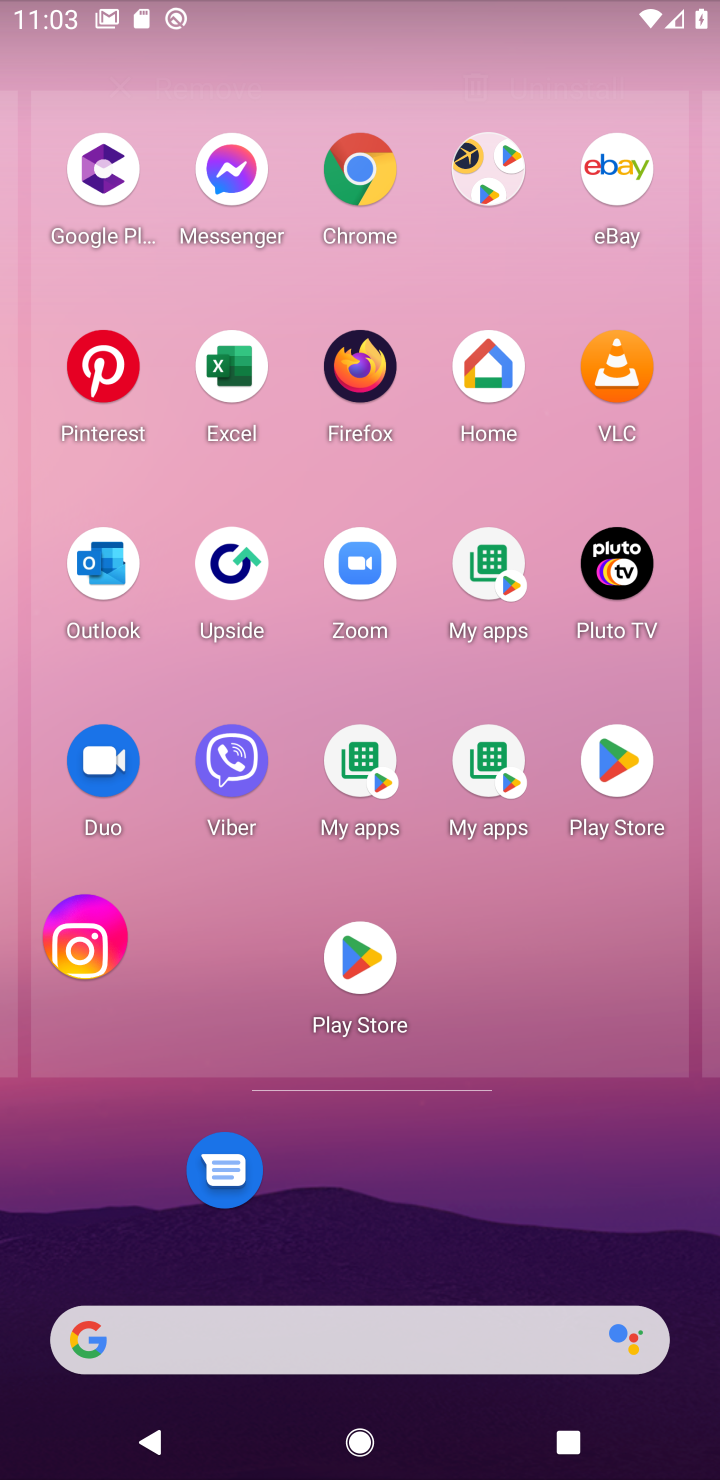
Step 56: click (101, 935)
Your task to perform on an android device: open app "Instagram" Image 57: 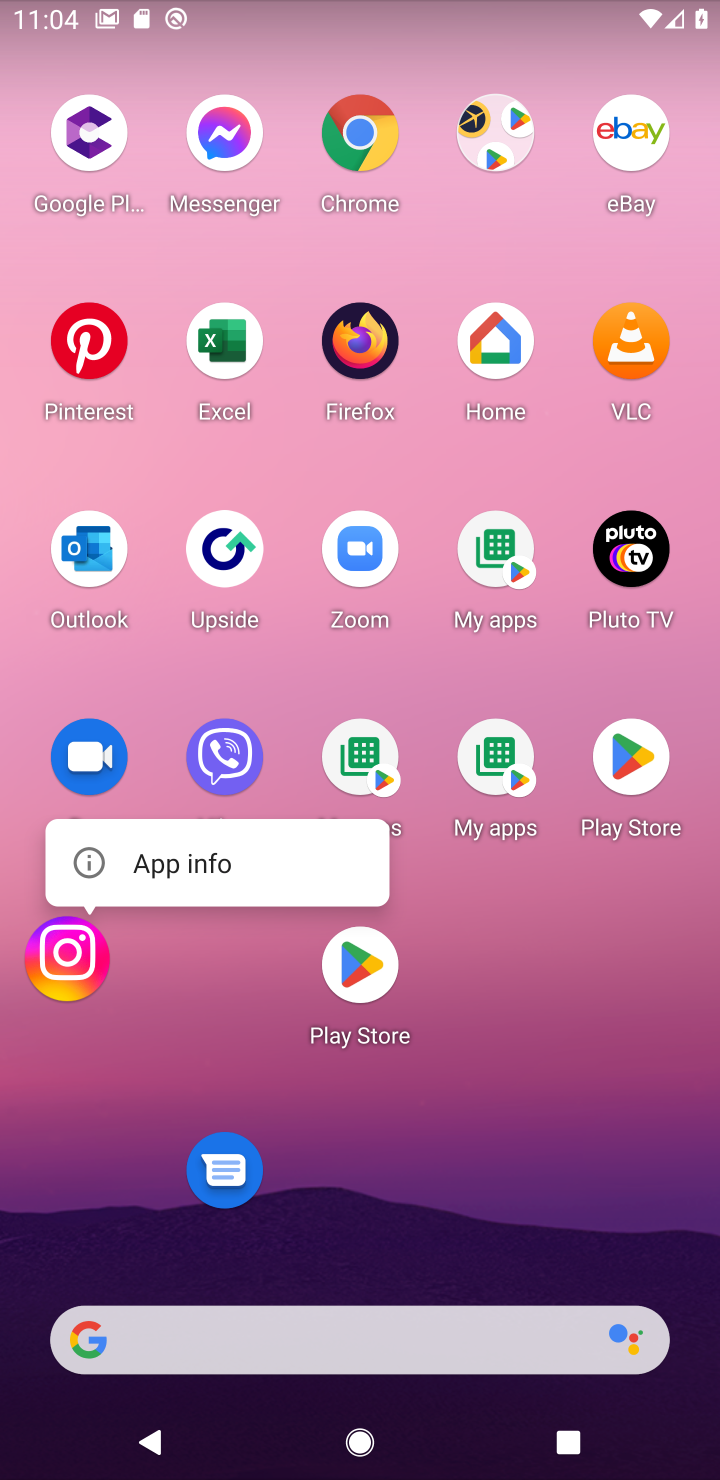
Step 57: click (96, 953)
Your task to perform on an android device: open app "Instagram" Image 58: 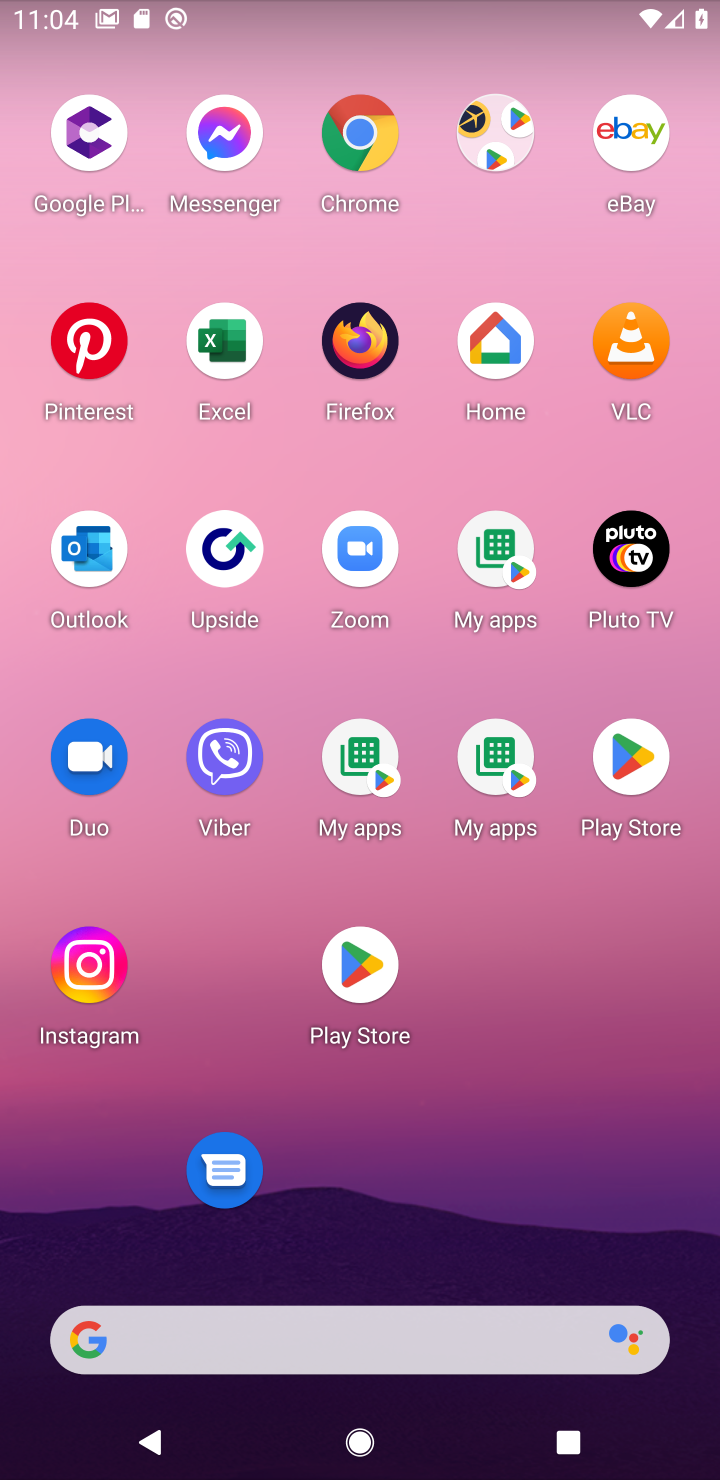
Step 58: click (117, 957)
Your task to perform on an android device: open app "Instagram" Image 59: 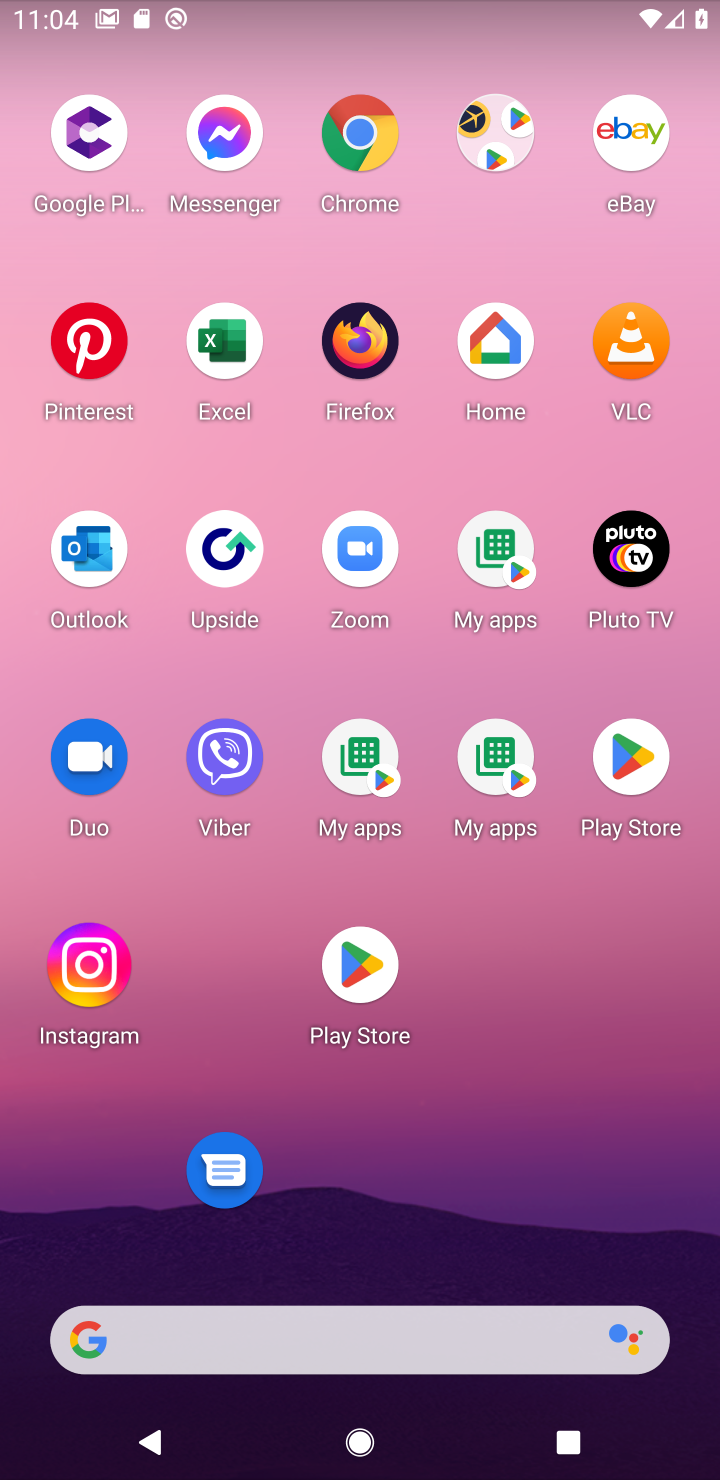
Step 59: click (119, 953)
Your task to perform on an android device: open app "Instagram" Image 60: 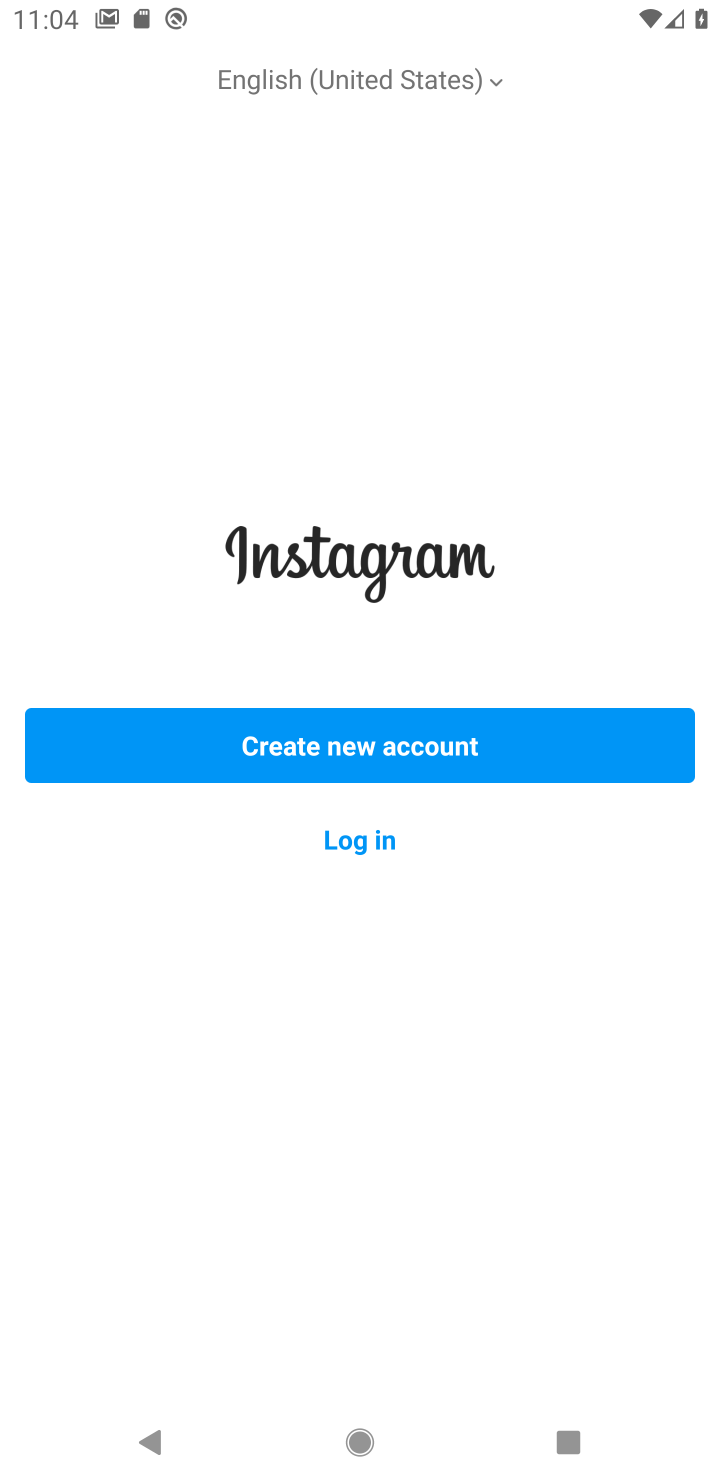
Step 60: task complete